Your task to perform on an android device: Empty the shopping cart on target.com. Search for "logitech g pro" on target.com, select the first entry, add it to the cart, then select checkout. Image 0: 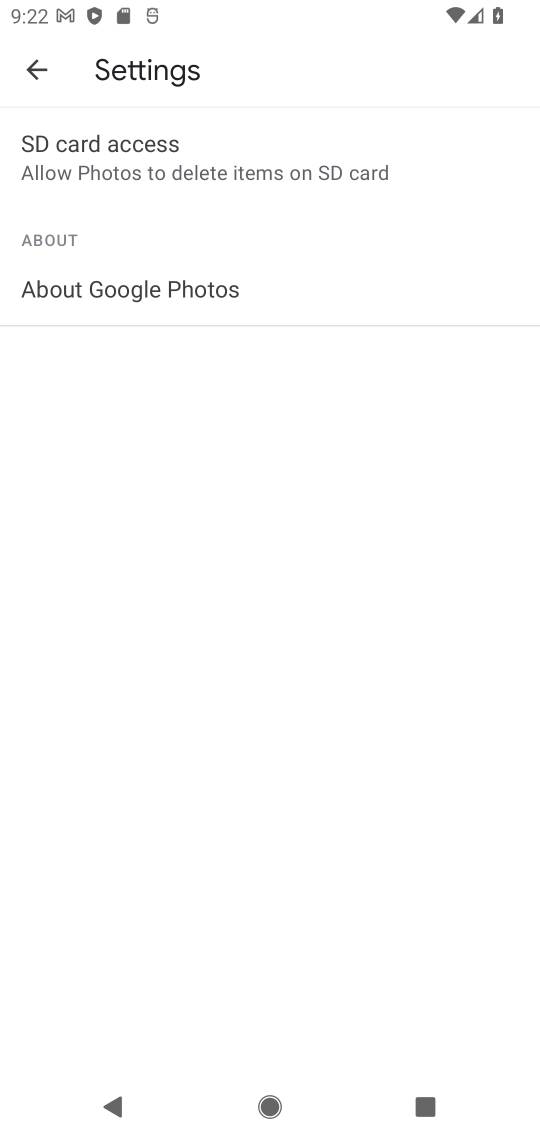
Step 0: press home button
Your task to perform on an android device: Empty the shopping cart on target.com. Search for "logitech g pro" on target.com, select the first entry, add it to the cart, then select checkout. Image 1: 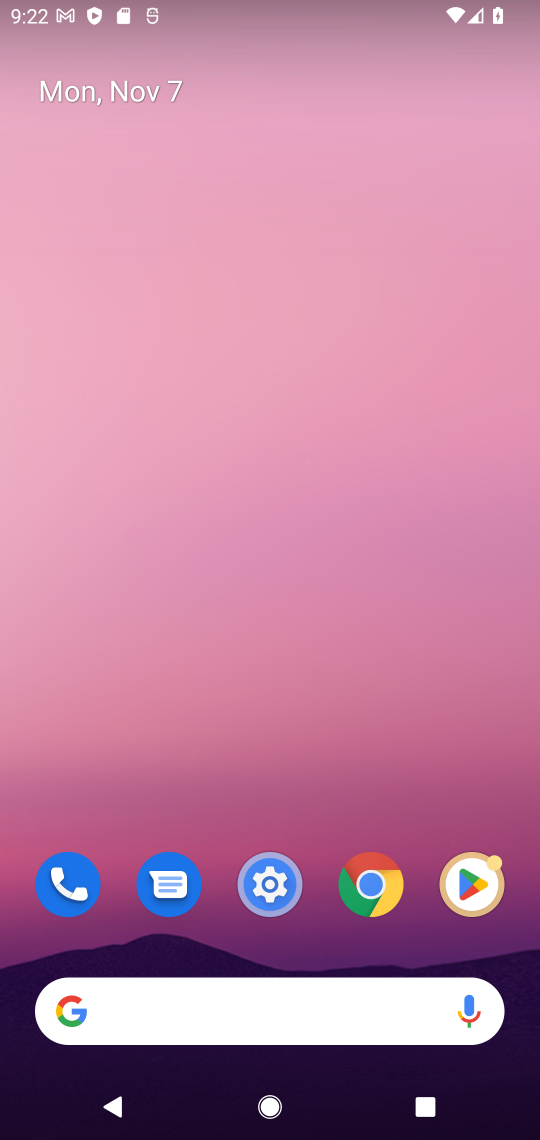
Step 1: click (378, 901)
Your task to perform on an android device: Empty the shopping cart on target.com. Search for "logitech g pro" on target.com, select the first entry, add it to the cart, then select checkout. Image 2: 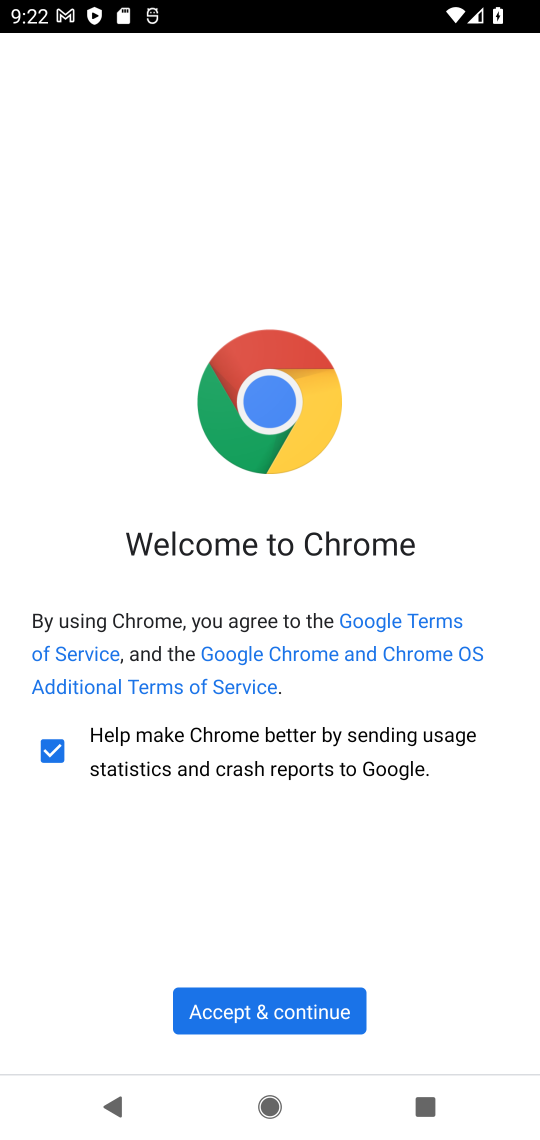
Step 2: click (287, 1012)
Your task to perform on an android device: Empty the shopping cart on target.com. Search for "logitech g pro" on target.com, select the first entry, add it to the cart, then select checkout. Image 3: 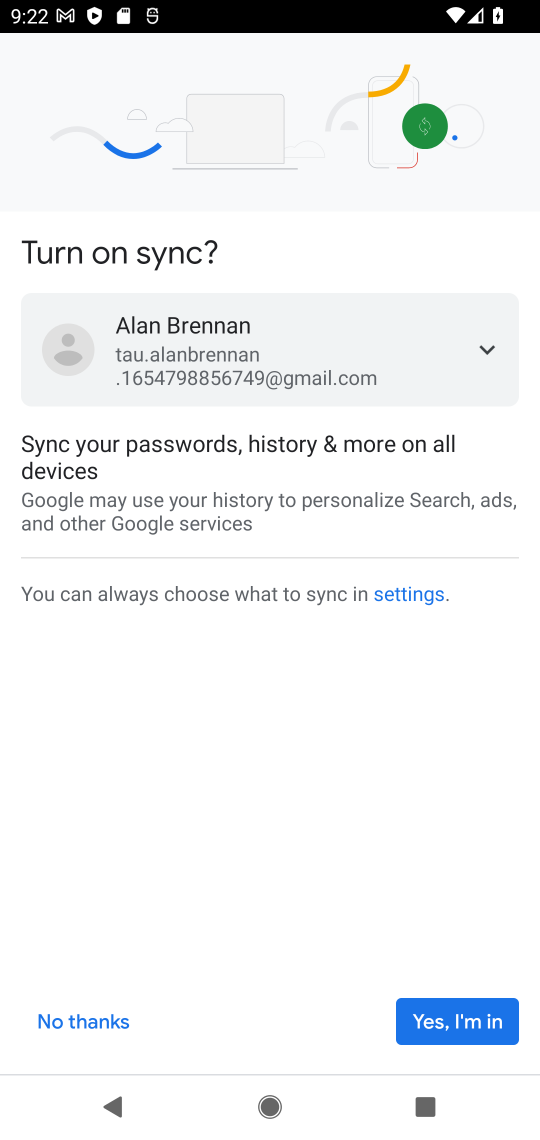
Step 3: click (459, 1012)
Your task to perform on an android device: Empty the shopping cart on target.com. Search for "logitech g pro" on target.com, select the first entry, add it to the cart, then select checkout. Image 4: 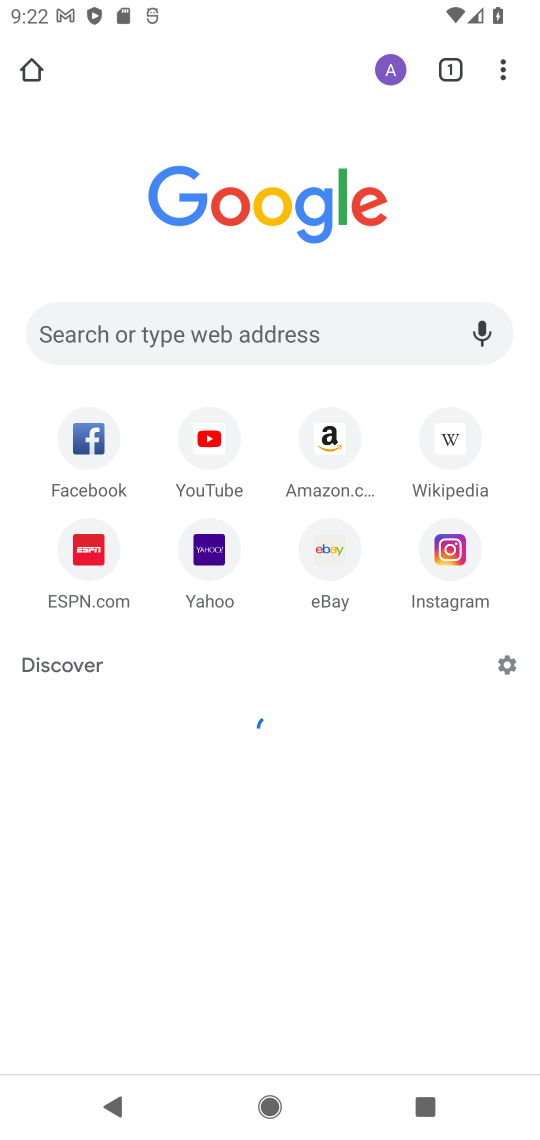
Step 4: click (309, 325)
Your task to perform on an android device: Empty the shopping cart on target.com. Search for "logitech g pro" on target.com, select the first entry, add it to the cart, then select checkout. Image 5: 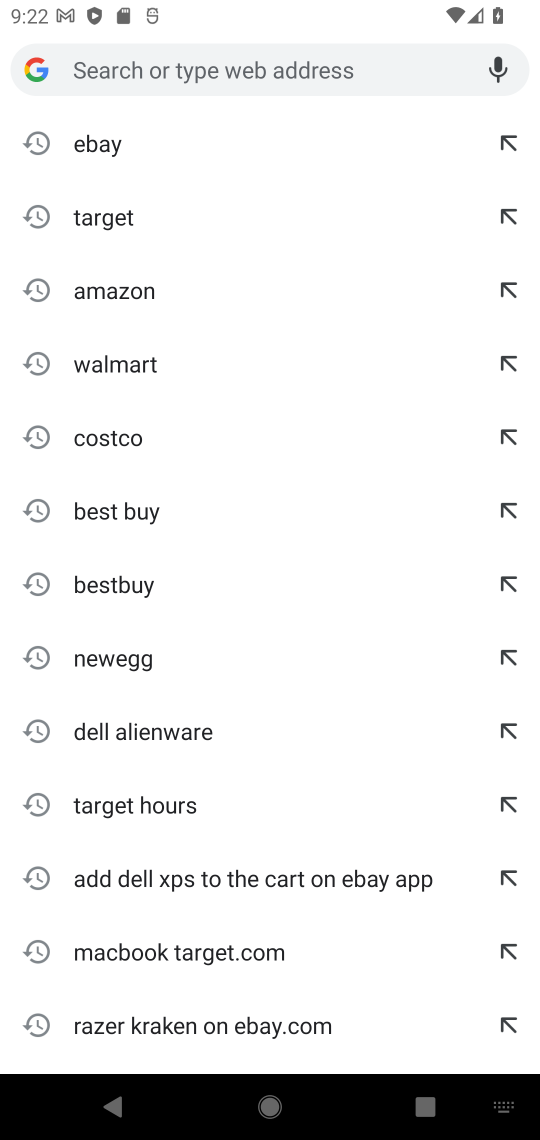
Step 5: click (119, 213)
Your task to perform on an android device: Empty the shopping cart on target.com. Search for "logitech g pro" on target.com, select the first entry, add it to the cart, then select checkout. Image 6: 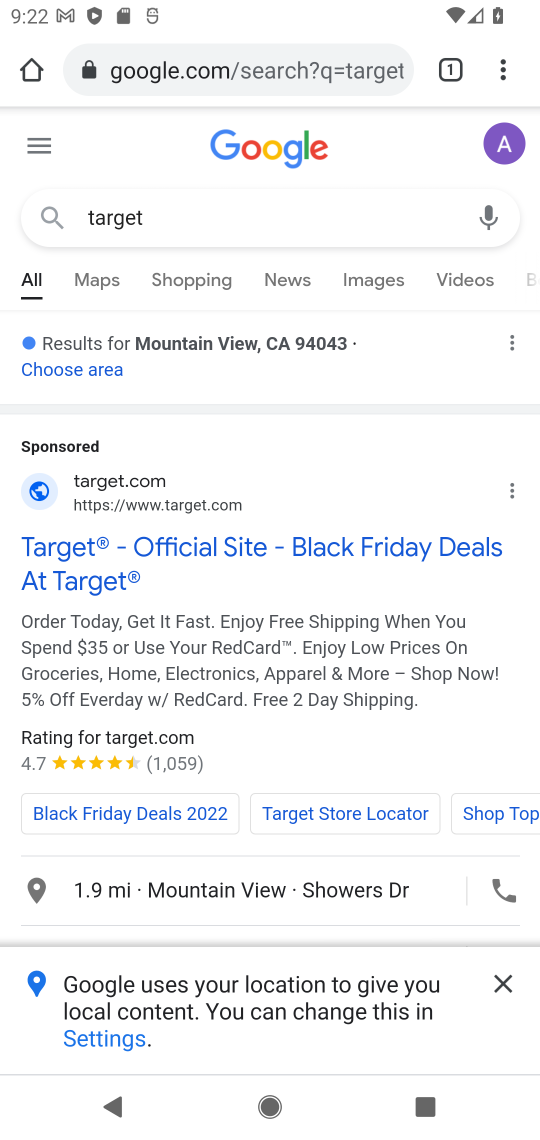
Step 6: click (176, 508)
Your task to perform on an android device: Empty the shopping cart on target.com. Search for "logitech g pro" on target.com, select the first entry, add it to the cart, then select checkout. Image 7: 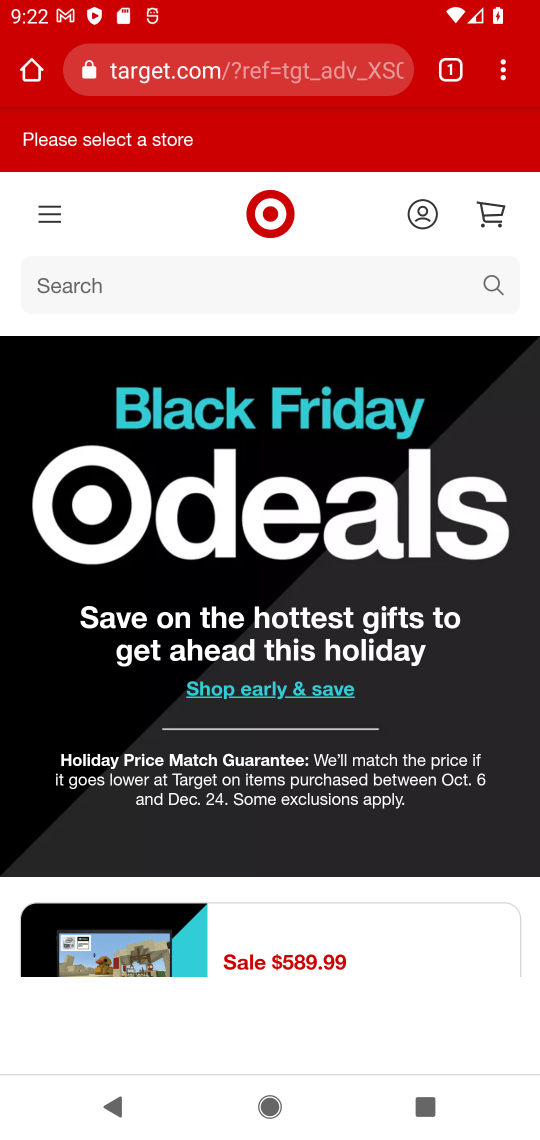
Step 7: click (490, 223)
Your task to perform on an android device: Empty the shopping cart on target.com. Search for "logitech g pro" on target.com, select the first entry, add it to the cart, then select checkout. Image 8: 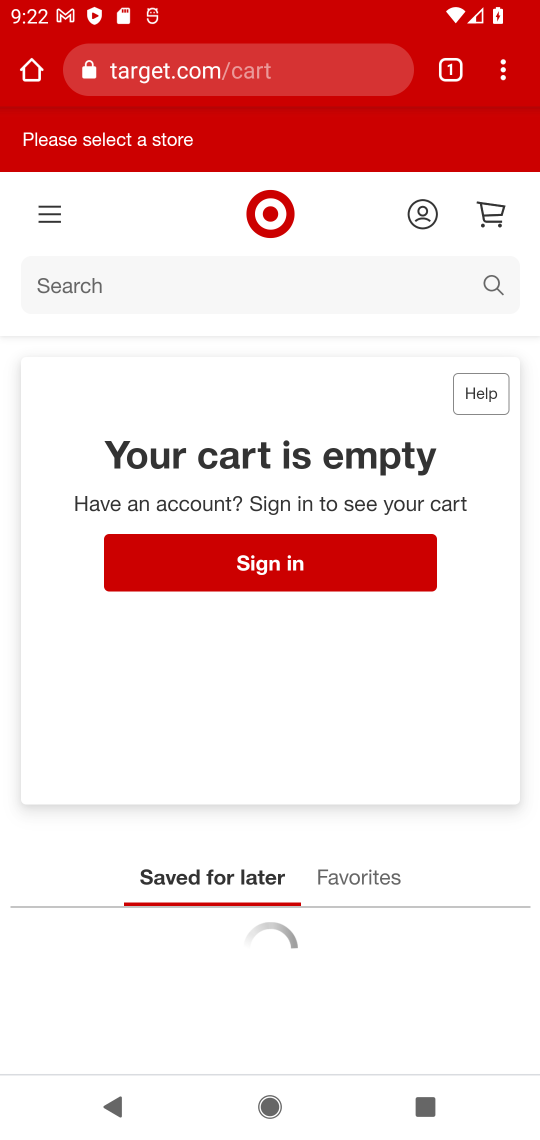
Step 8: click (491, 284)
Your task to perform on an android device: Empty the shopping cart on target.com. Search for "logitech g pro" on target.com, select the first entry, add it to the cart, then select checkout. Image 9: 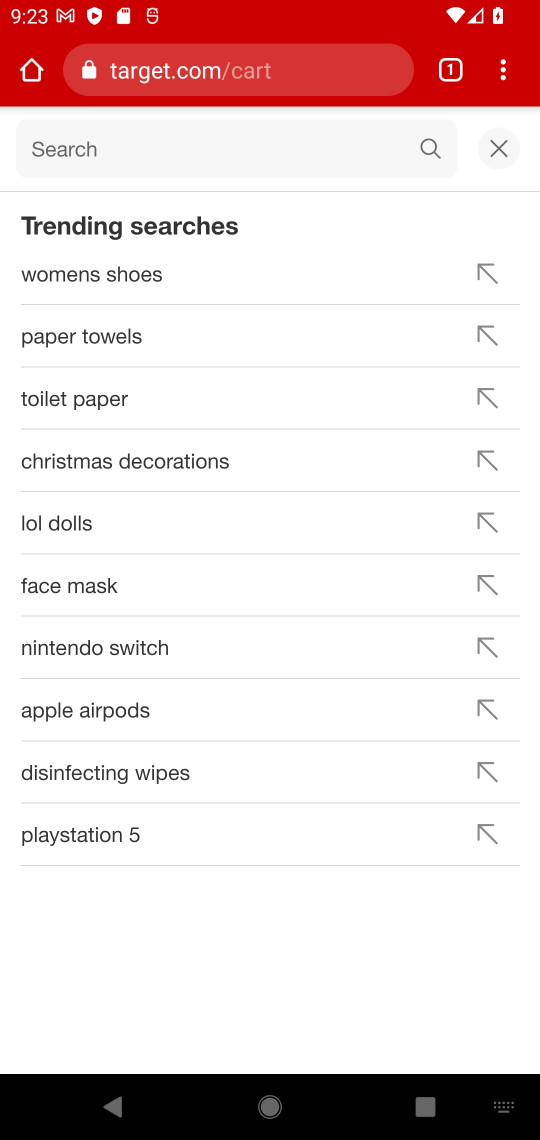
Step 9: type "logitech g pro"
Your task to perform on an android device: Empty the shopping cart on target.com. Search for "logitech g pro" on target.com, select the first entry, add it to the cart, then select checkout. Image 10: 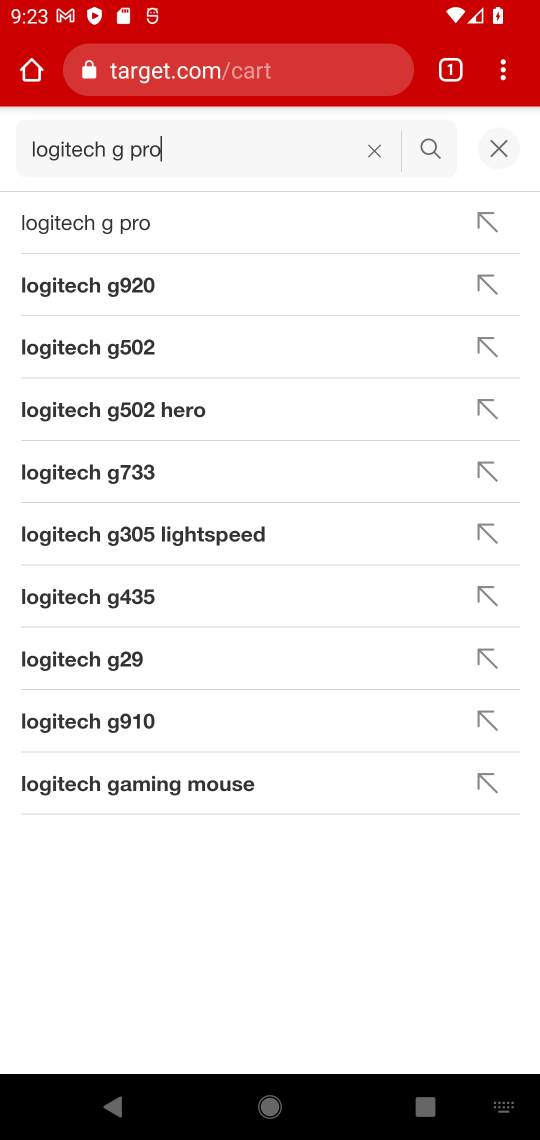
Step 10: click (128, 213)
Your task to perform on an android device: Empty the shopping cart on target.com. Search for "logitech g pro" on target.com, select the first entry, add it to the cart, then select checkout. Image 11: 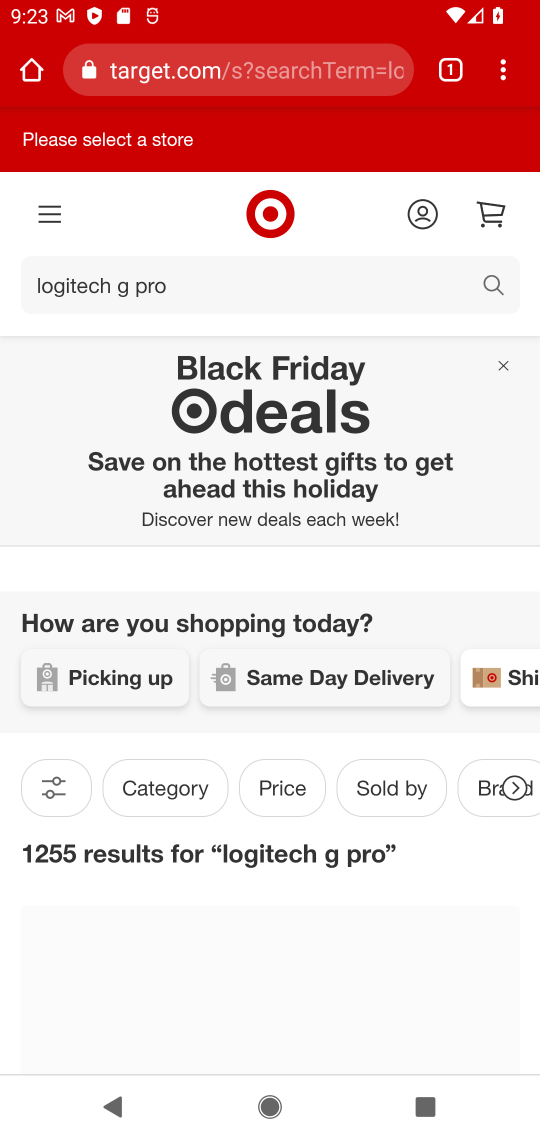
Step 11: drag from (418, 953) to (441, 282)
Your task to perform on an android device: Empty the shopping cart on target.com. Search for "logitech g pro" on target.com, select the first entry, add it to the cart, then select checkout. Image 12: 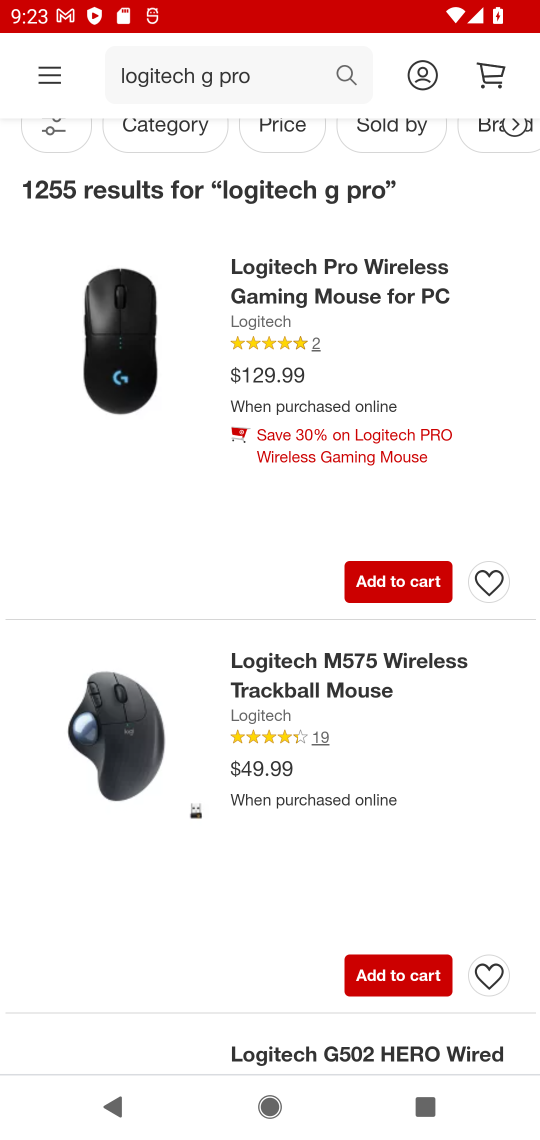
Step 12: drag from (404, 745) to (398, 349)
Your task to perform on an android device: Empty the shopping cart on target.com. Search for "logitech g pro" on target.com, select the first entry, add it to the cart, then select checkout. Image 13: 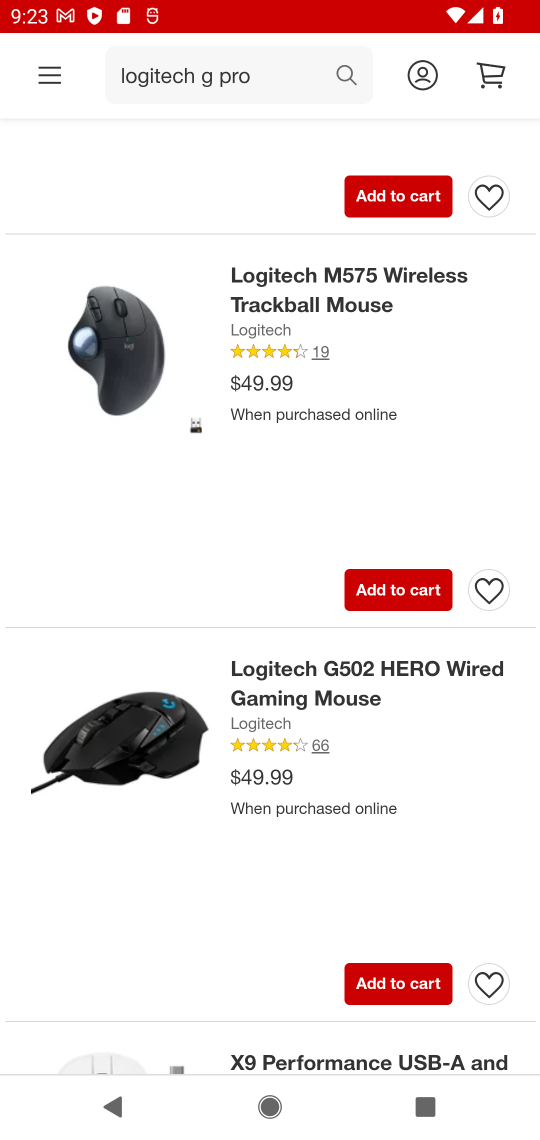
Step 13: drag from (400, 779) to (520, 281)
Your task to perform on an android device: Empty the shopping cart on target.com. Search for "logitech g pro" on target.com, select the first entry, add it to the cart, then select checkout. Image 14: 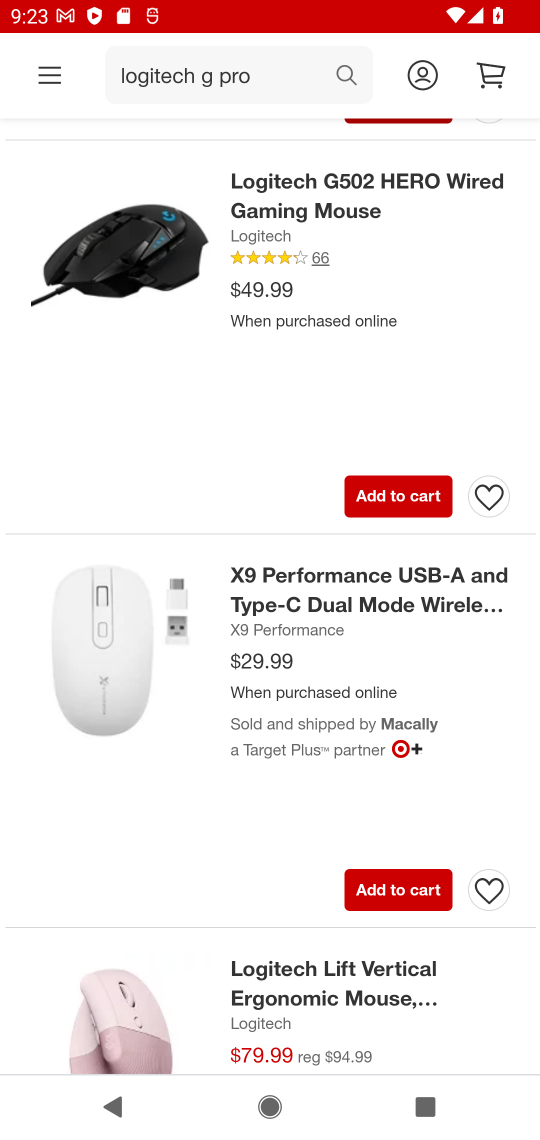
Step 14: drag from (361, 679) to (429, 357)
Your task to perform on an android device: Empty the shopping cart on target.com. Search for "logitech g pro" on target.com, select the first entry, add it to the cart, then select checkout. Image 15: 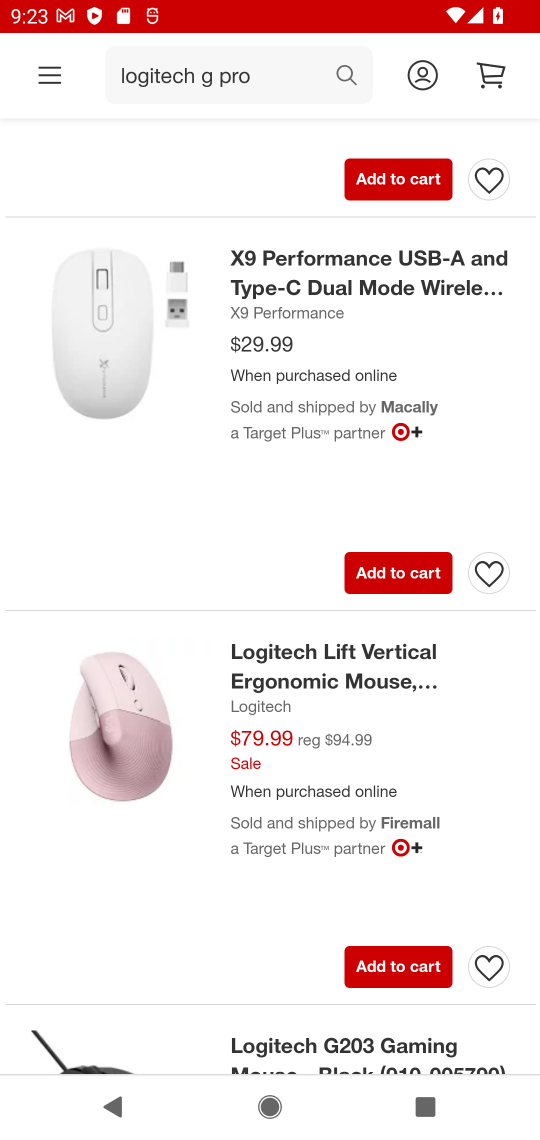
Step 15: drag from (452, 757) to (470, 325)
Your task to perform on an android device: Empty the shopping cart on target.com. Search for "logitech g pro" on target.com, select the first entry, add it to the cart, then select checkout. Image 16: 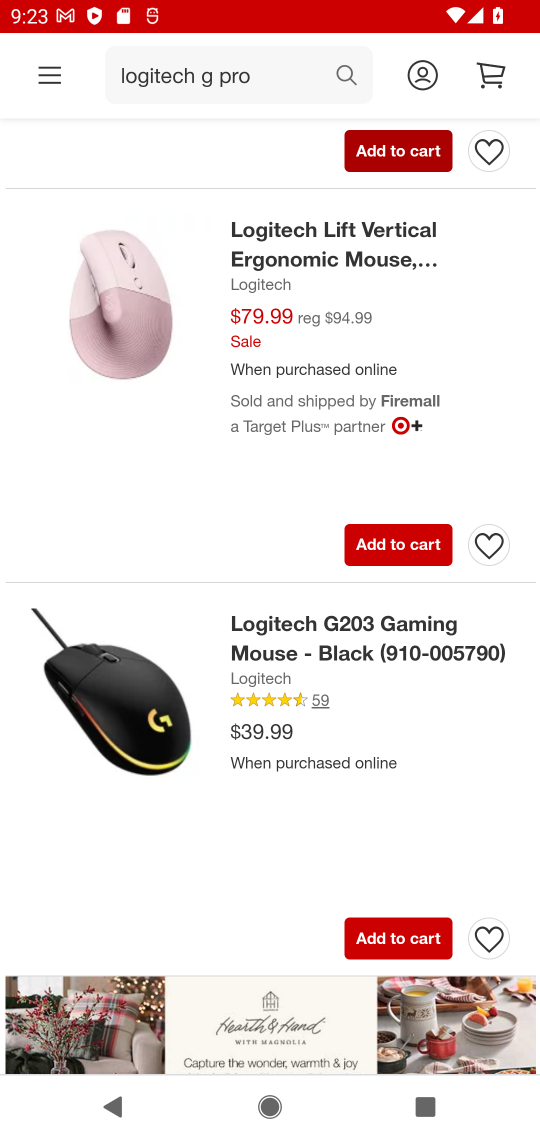
Step 16: drag from (390, 757) to (447, 324)
Your task to perform on an android device: Empty the shopping cart on target.com. Search for "logitech g pro" on target.com, select the first entry, add it to the cart, then select checkout. Image 17: 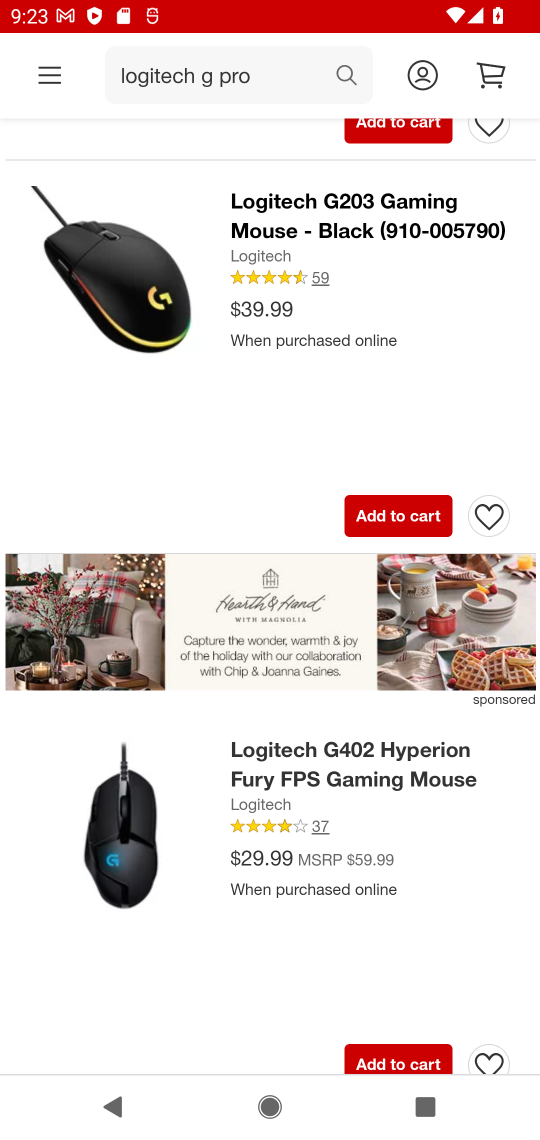
Step 17: drag from (383, 816) to (438, 526)
Your task to perform on an android device: Empty the shopping cart on target.com. Search for "logitech g pro" on target.com, select the first entry, add it to the cart, then select checkout. Image 18: 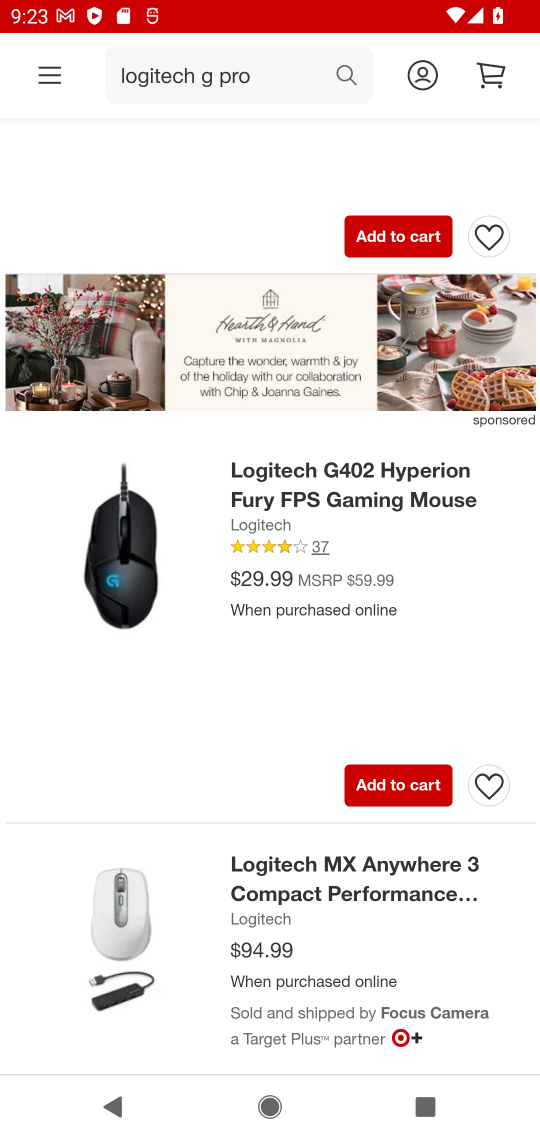
Step 18: drag from (417, 649) to (420, 390)
Your task to perform on an android device: Empty the shopping cart on target.com. Search for "logitech g pro" on target.com, select the first entry, add it to the cart, then select checkout. Image 19: 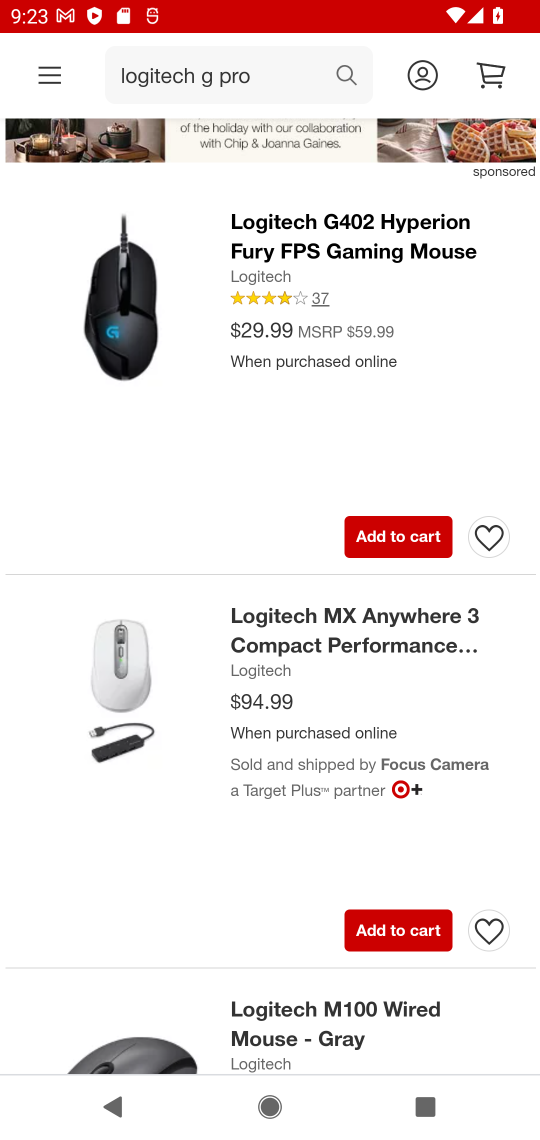
Step 19: drag from (454, 709) to (480, 284)
Your task to perform on an android device: Empty the shopping cart on target.com. Search for "logitech g pro" on target.com, select the first entry, add it to the cart, then select checkout. Image 20: 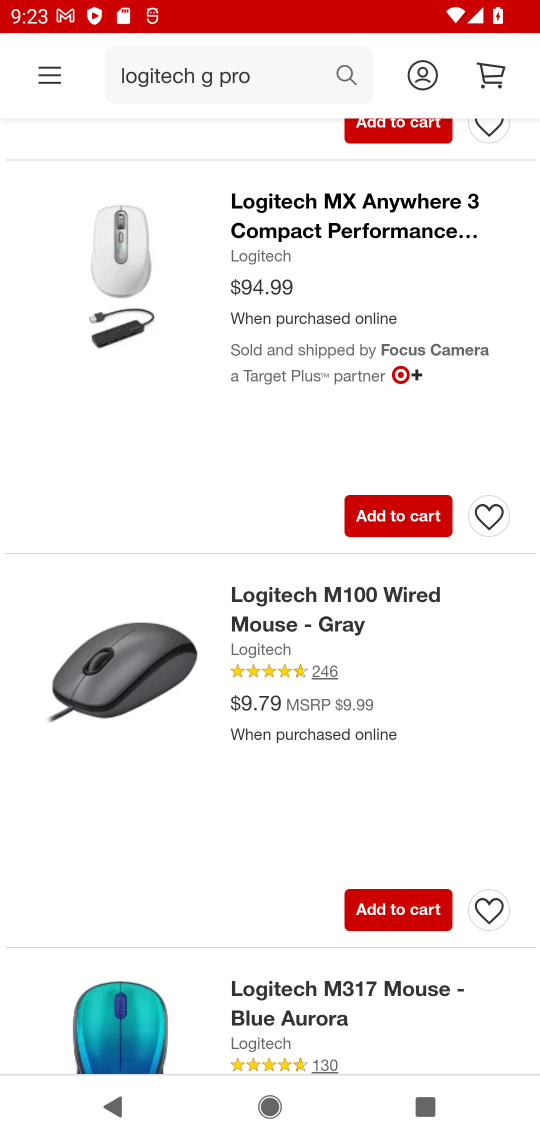
Step 20: drag from (419, 666) to (421, 490)
Your task to perform on an android device: Empty the shopping cart on target.com. Search for "logitech g pro" on target.com, select the first entry, add it to the cart, then select checkout. Image 21: 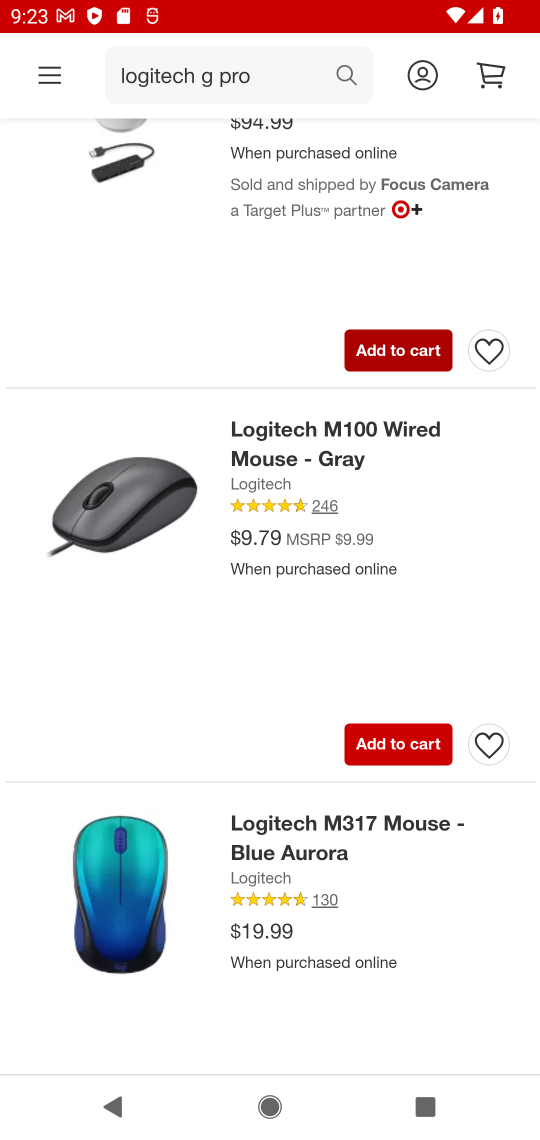
Step 21: drag from (425, 620) to (438, 290)
Your task to perform on an android device: Empty the shopping cart on target.com. Search for "logitech g pro" on target.com, select the first entry, add it to the cart, then select checkout. Image 22: 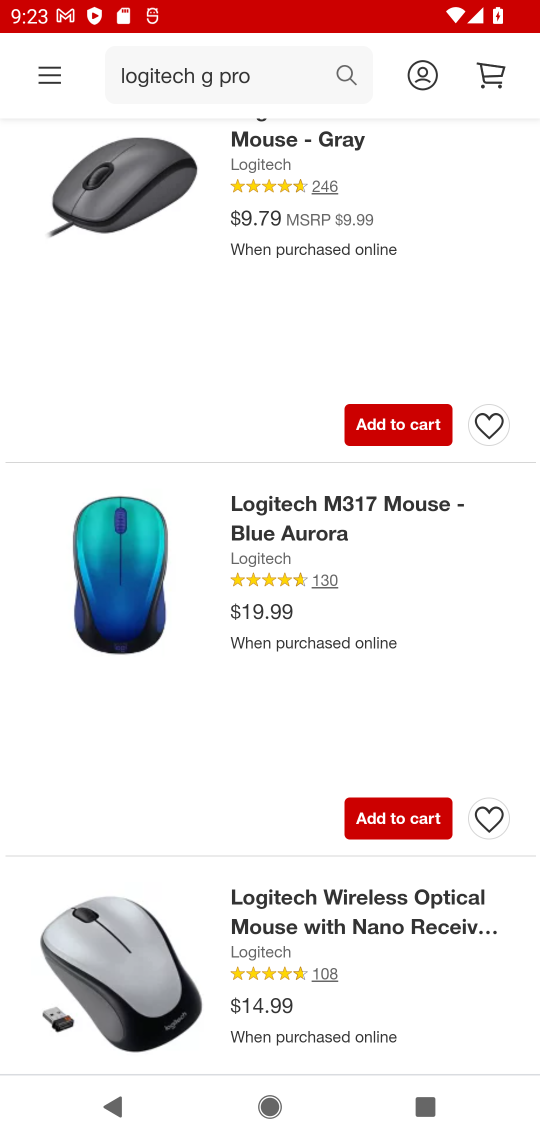
Step 22: drag from (375, 832) to (459, 476)
Your task to perform on an android device: Empty the shopping cart on target.com. Search for "logitech g pro" on target.com, select the first entry, add it to the cart, then select checkout. Image 23: 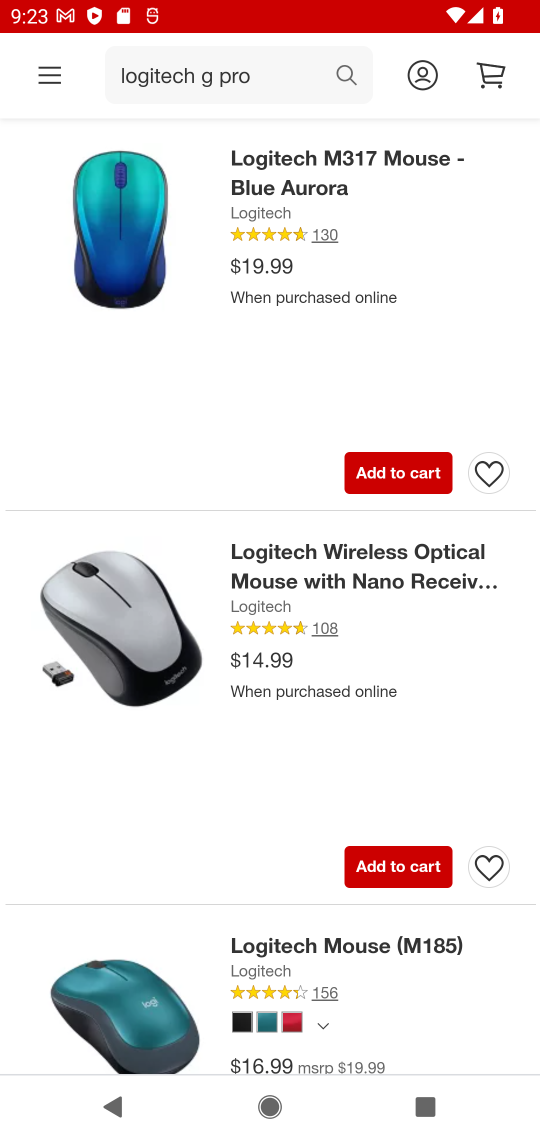
Step 23: drag from (422, 737) to (464, 304)
Your task to perform on an android device: Empty the shopping cart on target.com. Search for "logitech g pro" on target.com, select the first entry, add it to the cart, then select checkout. Image 24: 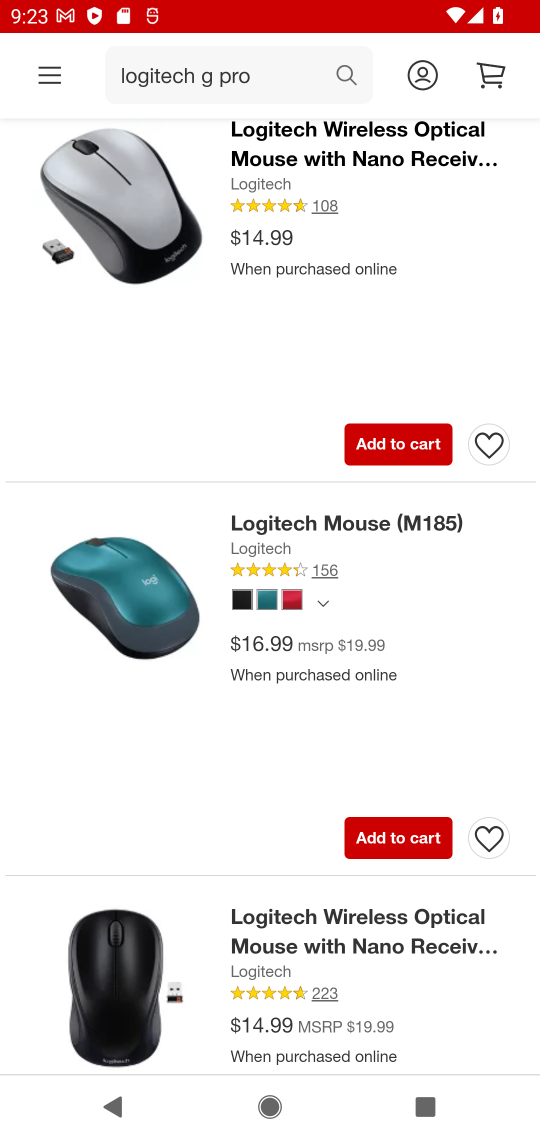
Step 24: drag from (401, 1005) to (377, 462)
Your task to perform on an android device: Empty the shopping cart on target.com. Search for "logitech g pro" on target.com, select the first entry, add it to the cart, then select checkout. Image 25: 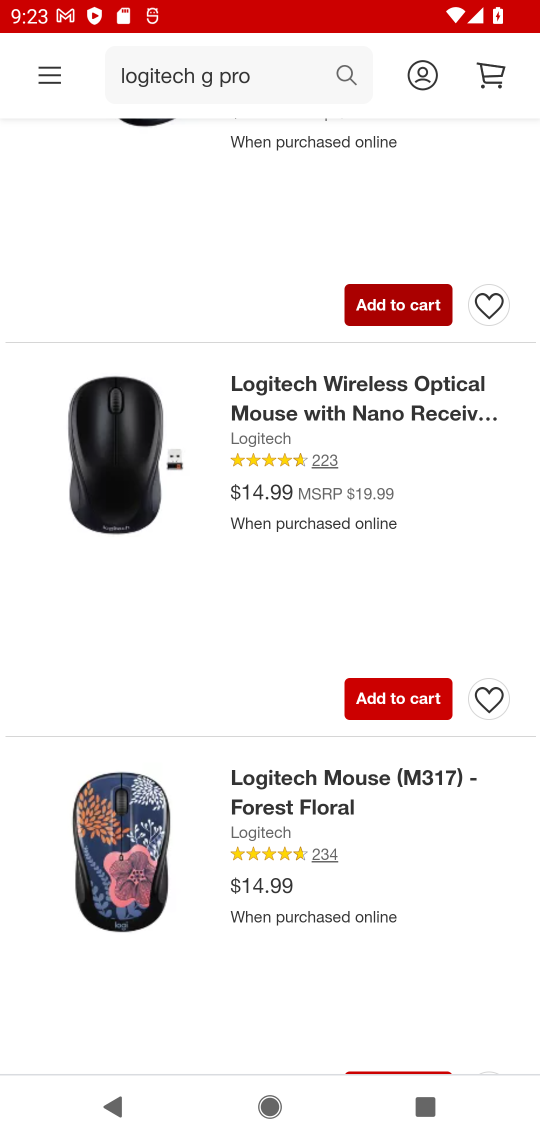
Step 25: drag from (381, 881) to (422, 463)
Your task to perform on an android device: Empty the shopping cart on target.com. Search for "logitech g pro" on target.com, select the first entry, add it to the cart, then select checkout. Image 26: 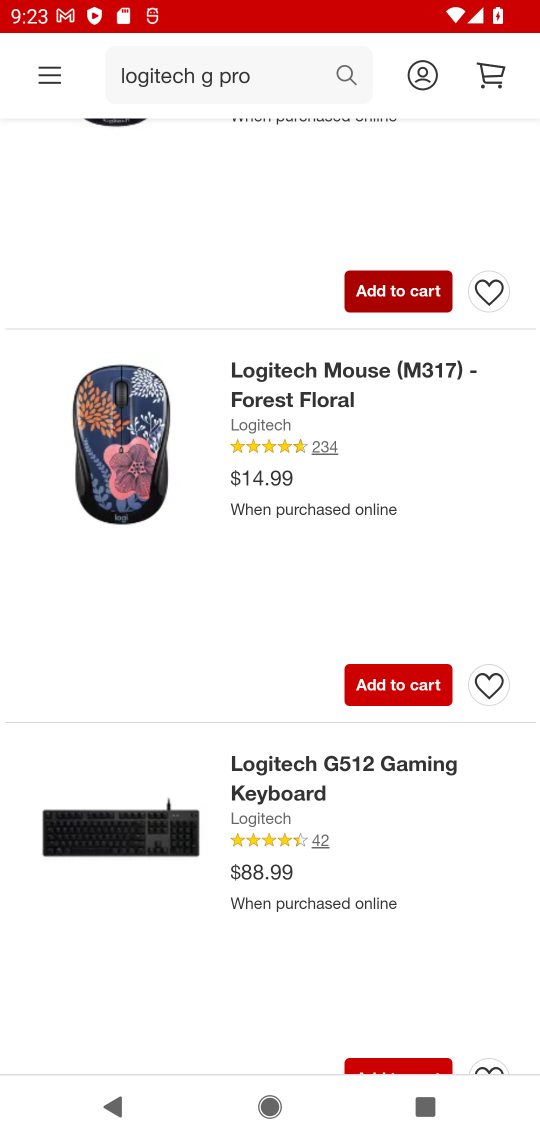
Step 26: drag from (404, 888) to (402, 386)
Your task to perform on an android device: Empty the shopping cart on target.com. Search for "logitech g pro" on target.com, select the first entry, add it to the cart, then select checkout. Image 27: 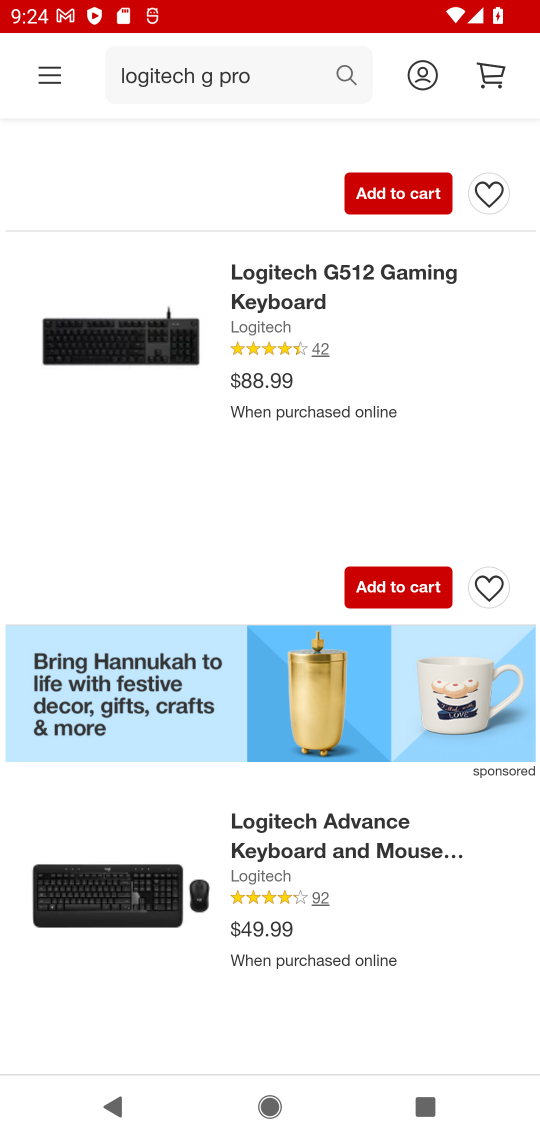
Step 27: drag from (299, 928) to (299, 617)
Your task to perform on an android device: Empty the shopping cart on target.com. Search for "logitech g pro" on target.com, select the first entry, add it to the cart, then select checkout. Image 28: 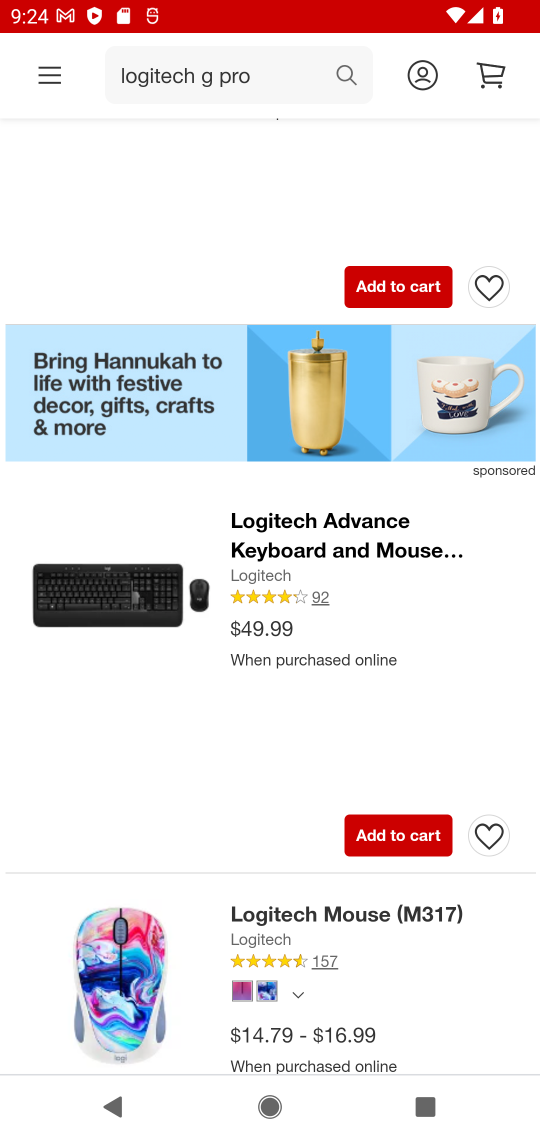
Step 28: drag from (421, 623) to (475, 361)
Your task to perform on an android device: Empty the shopping cart on target.com. Search for "logitech g pro" on target.com, select the first entry, add it to the cart, then select checkout. Image 29: 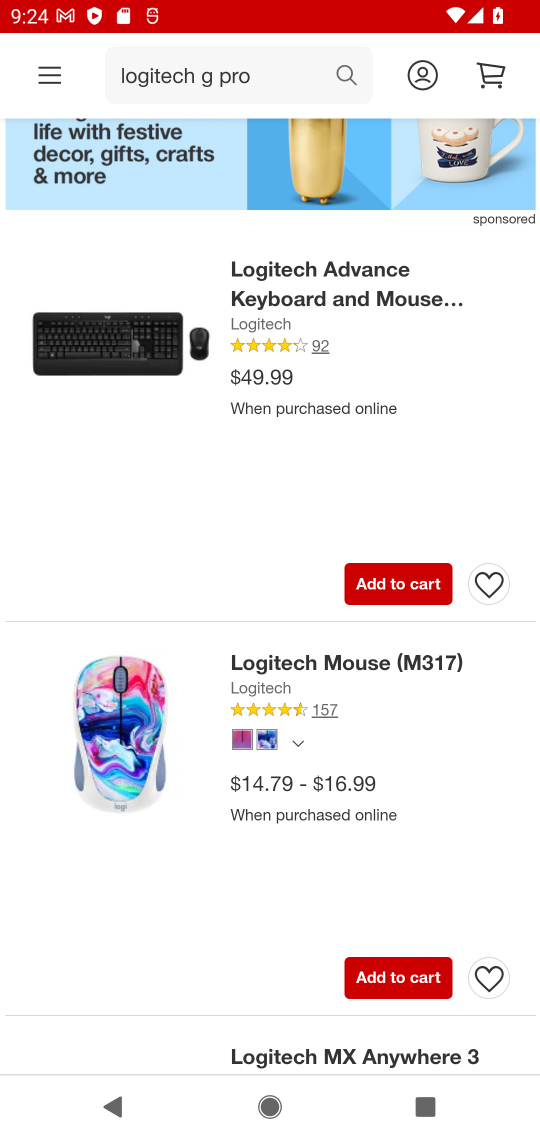
Step 29: drag from (437, 653) to (447, 426)
Your task to perform on an android device: Empty the shopping cart on target.com. Search for "logitech g pro" on target.com, select the first entry, add it to the cart, then select checkout. Image 30: 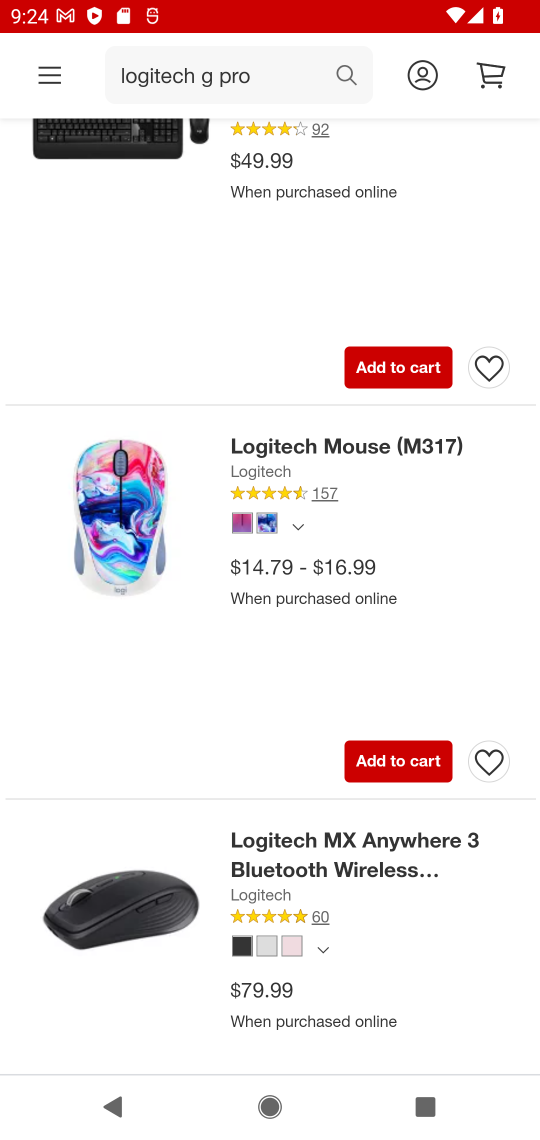
Step 30: drag from (394, 649) to (398, 203)
Your task to perform on an android device: Empty the shopping cart on target.com. Search for "logitech g pro" on target.com, select the first entry, add it to the cart, then select checkout. Image 31: 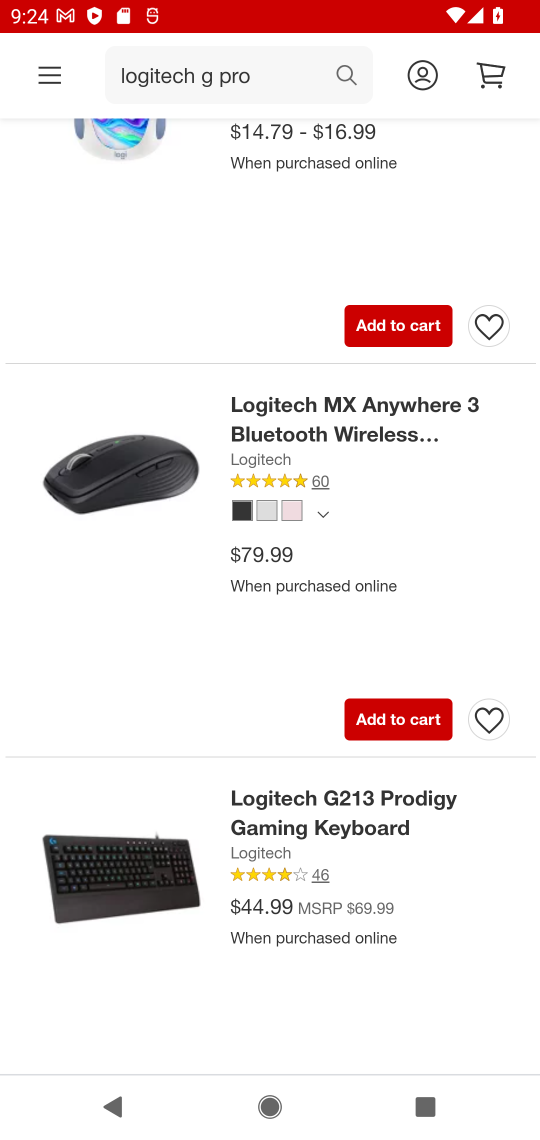
Step 31: drag from (422, 483) to (351, 1109)
Your task to perform on an android device: Empty the shopping cart on target.com. Search for "logitech g pro" on target.com, select the first entry, add it to the cart, then select checkout. Image 32: 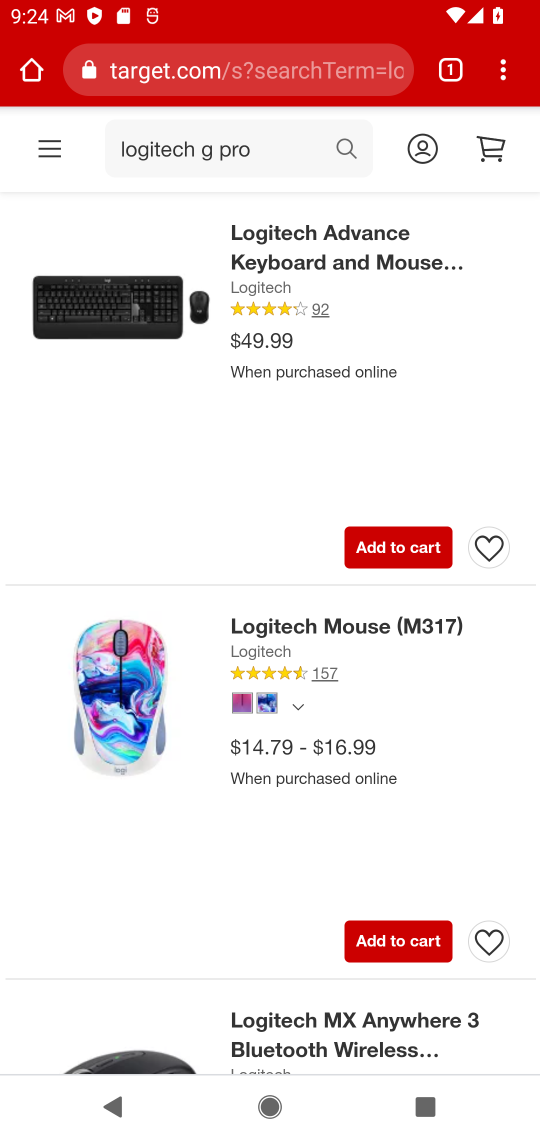
Step 32: drag from (423, 231) to (381, 760)
Your task to perform on an android device: Empty the shopping cart on target.com. Search for "logitech g pro" on target.com, select the first entry, add it to the cart, then select checkout. Image 33: 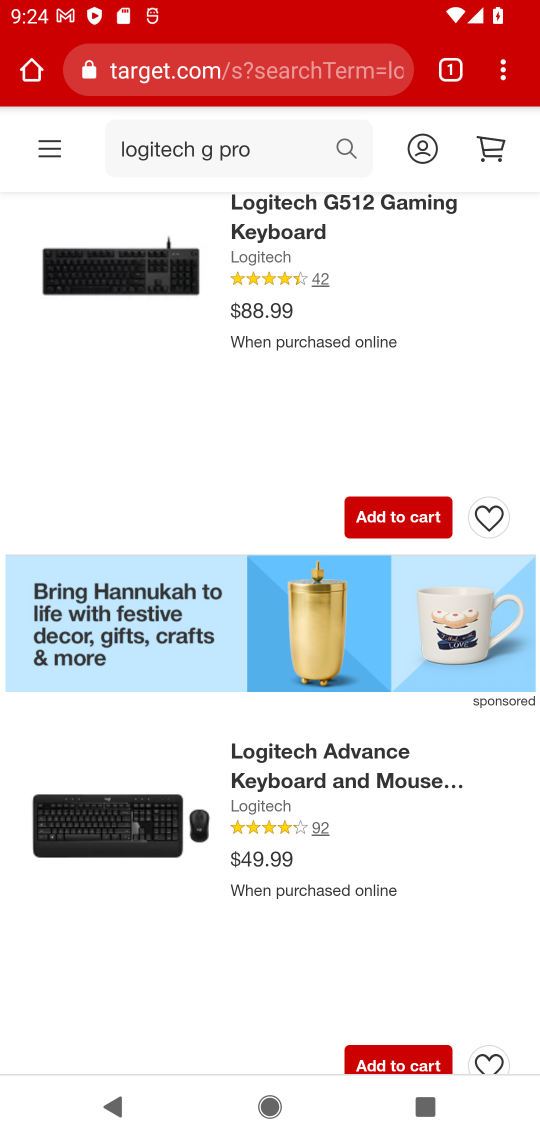
Step 33: drag from (393, 544) to (339, 891)
Your task to perform on an android device: Empty the shopping cart on target.com. Search for "logitech g pro" on target.com, select the first entry, add it to the cart, then select checkout. Image 34: 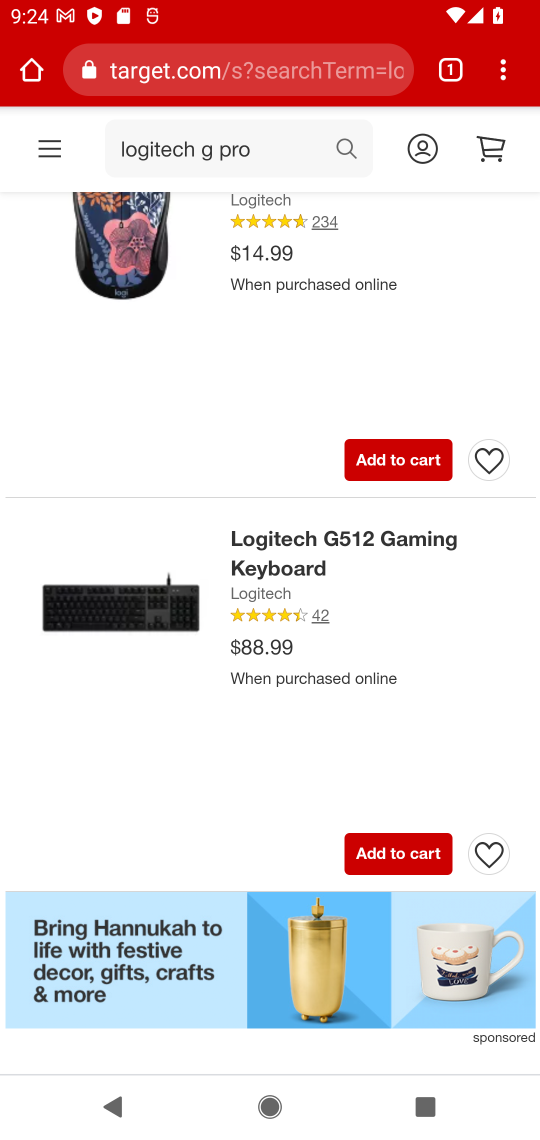
Step 34: drag from (438, 328) to (330, 904)
Your task to perform on an android device: Empty the shopping cart on target.com. Search for "logitech g pro" on target.com, select the first entry, add it to the cart, then select checkout. Image 35: 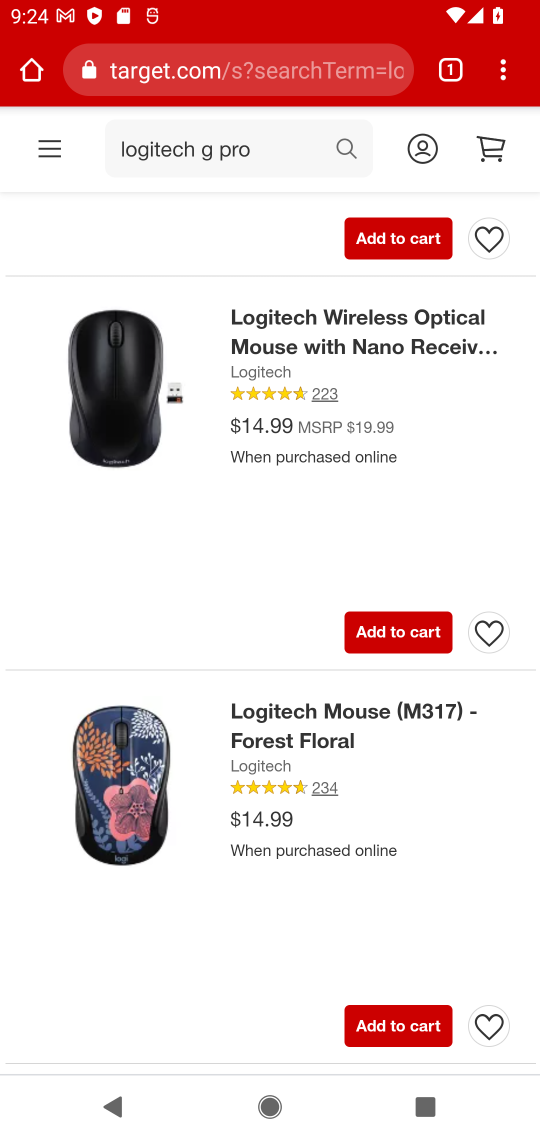
Step 35: drag from (444, 379) to (449, 777)
Your task to perform on an android device: Empty the shopping cart on target.com. Search for "logitech g pro" on target.com, select the first entry, add it to the cart, then select checkout. Image 36: 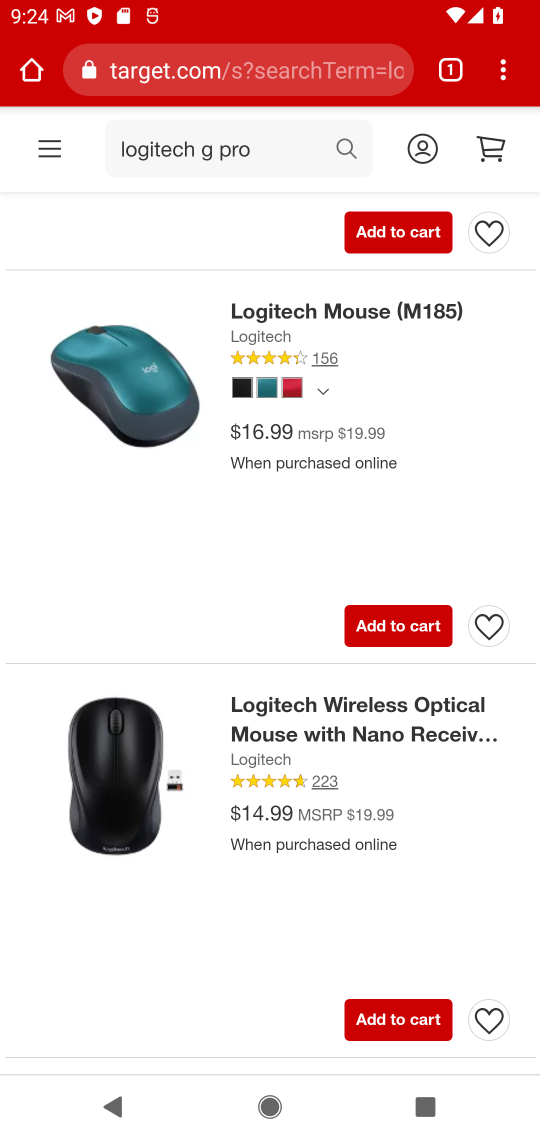
Step 36: drag from (388, 340) to (345, 778)
Your task to perform on an android device: Empty the shopping cart on target.com. Search for "logitech g pro" on target.com, select the first entry, add it to the cart, then select checkout. Image 37: 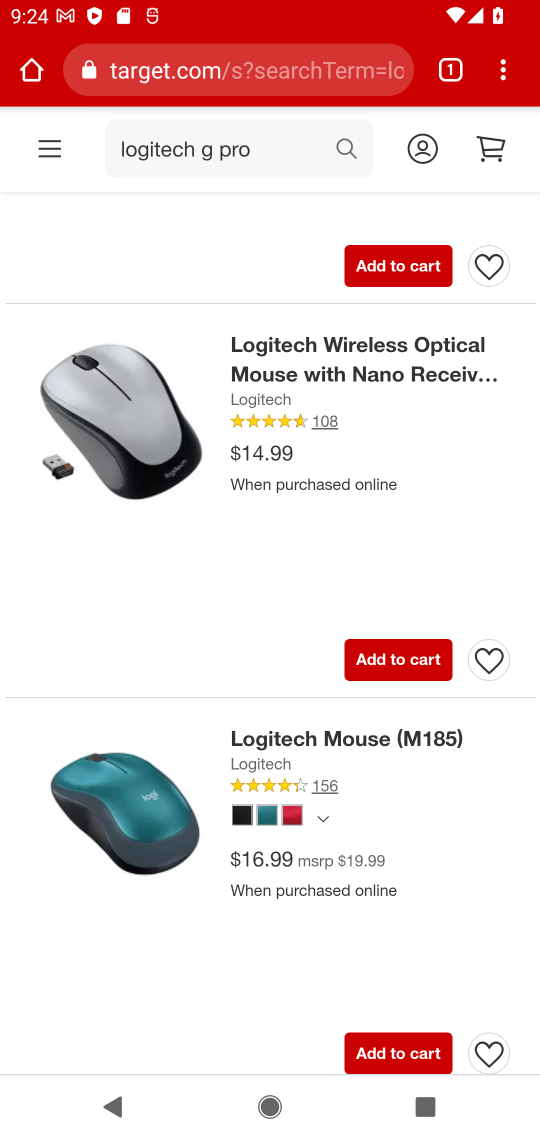
Step 37: drag from (419, 467) to (422, 966)
Your task to perform on an android device: Empty the shopping cart on target.com. Search for "logitech g pro" on target.com, select the first entry, add it to the cart, then select checkout. Image 38: 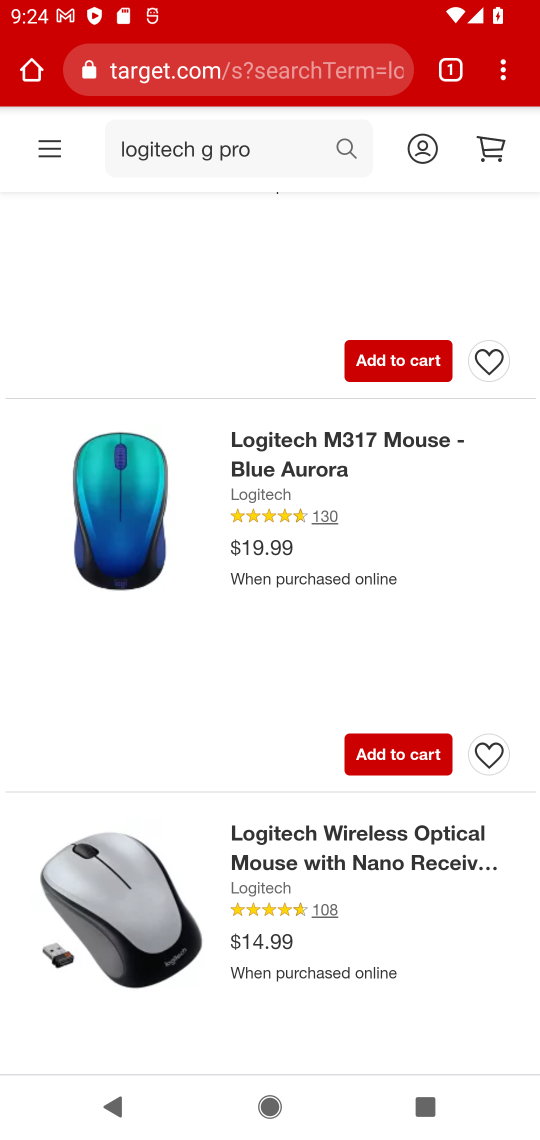
Step 38: drag from (405, 519) to (348, 1004)
Your task to perform on an android device: Empty the shopping cart on target.com. Search for "logitech g pro" on target.com, select the first entry, add it to the cart, then select checkout. Image 39: 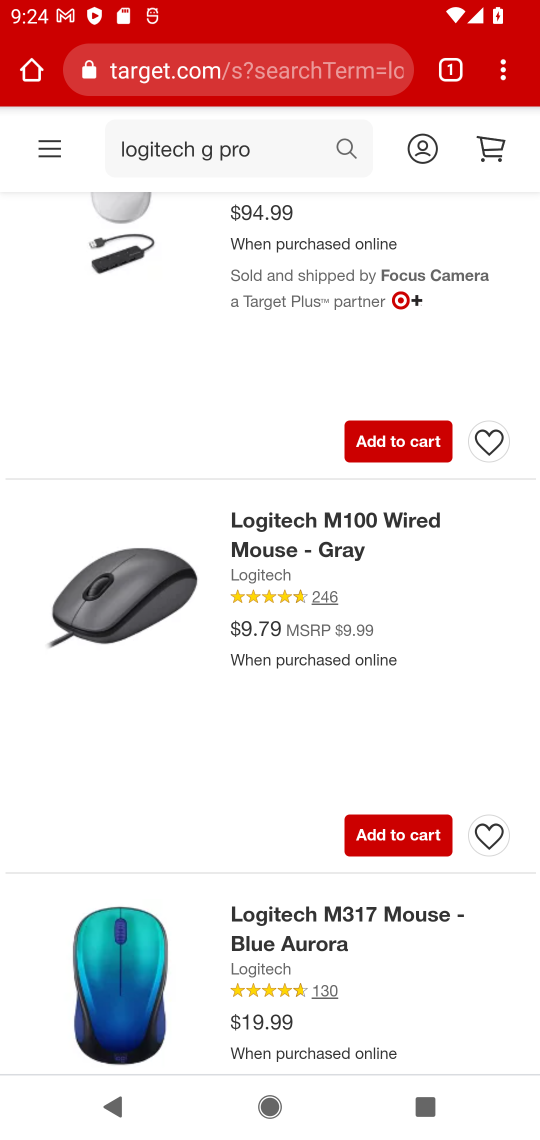
Step 39: drag from (374, 312) to (337, 840)
Your task to perform on an android device: Empty the shopping cart on target.com. Search for "logitech g pro" on target.com, select the first entry, add it to the cart, then select checkout. Image 40: 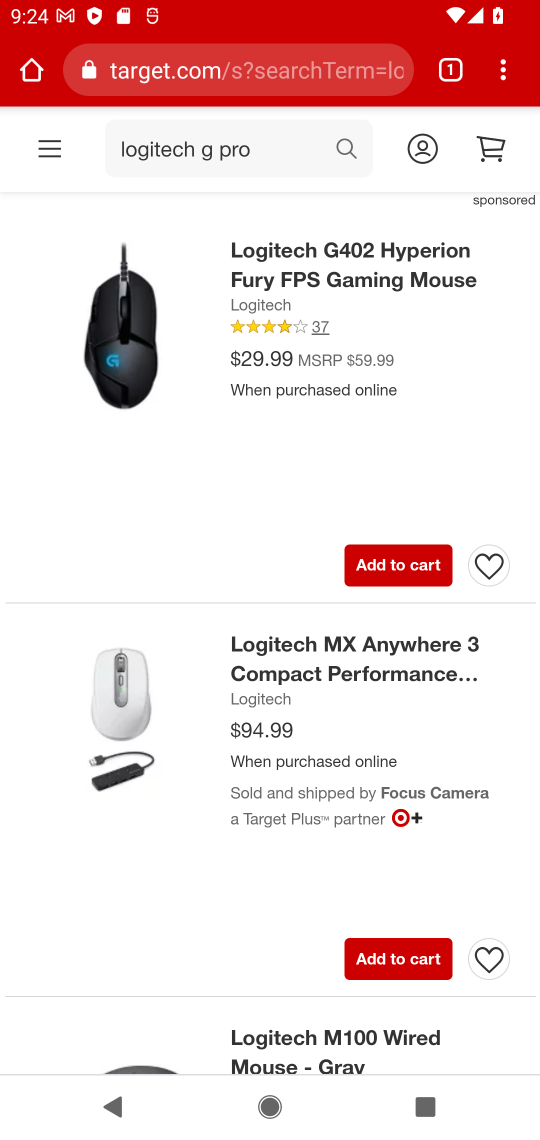
Step 40: drag from (325, 392) to (345, 749)
Your task to perform on an android device: Empty the shopping cart on target.com. Search for "logitech g pro" on target.com, select the first entry, add it to the cart, then select checkout. Image 41: 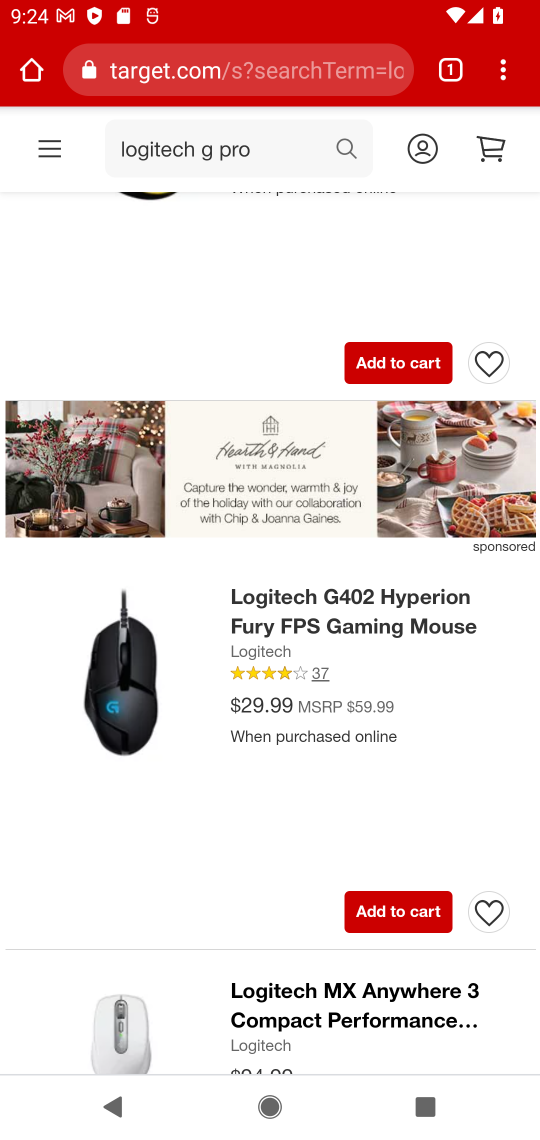
Step 41: drag from (374, 636) to (393, 994)
Your task to perform on an android device: Empty the shopping cart on target.com. Search for "logitech g pro" on target.com, select the first entry, add it to the cart, then select checkout. Image 42: 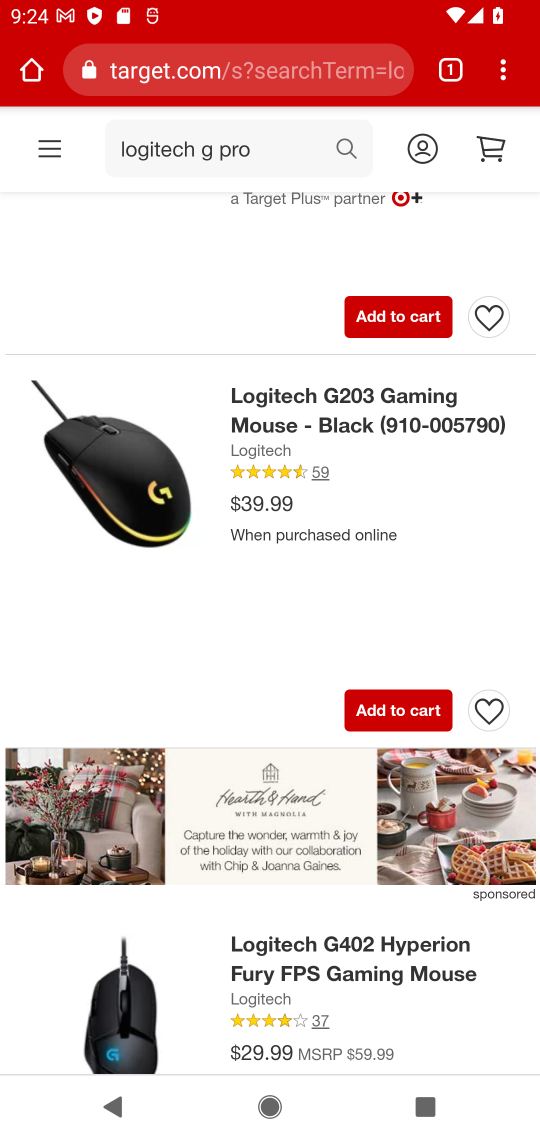
Step 42: drag from (416, 365) to (366, 945)
Your task to perform on an android device: Empty the shopping cart on target.com. Search for "logitech g pro" on target.com, select the first entry, add it to the cart, then select checkout. Image 43: 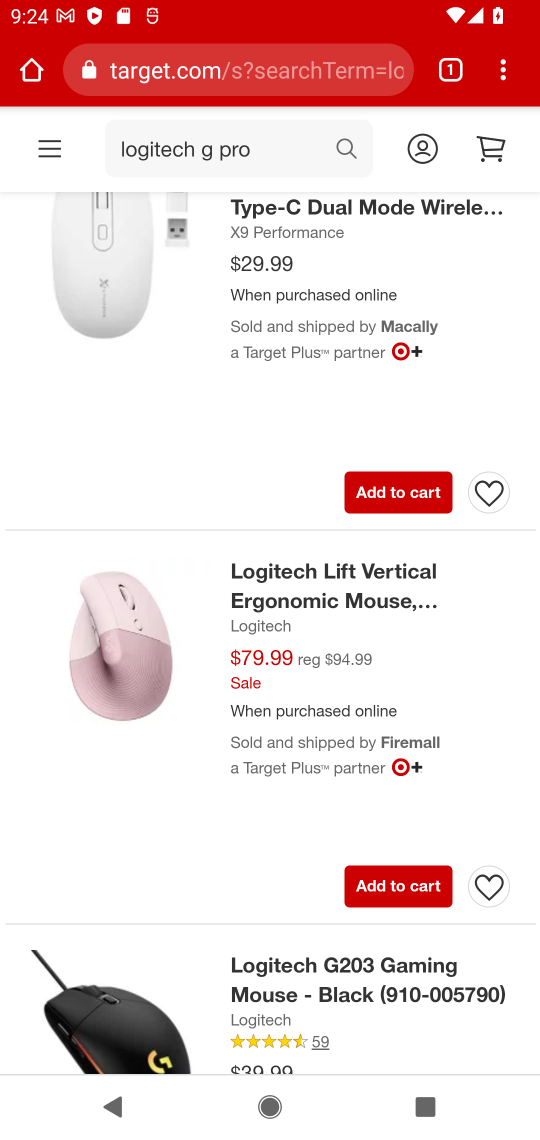
Step 43: drag from (381, 312) to (390, 674)
Your task to perform on an android device: Empty the shopping cart on target.com. Search for "logitech g pro" on target.com, select the first entry, add it to the cart, then select checkout. Image 44: 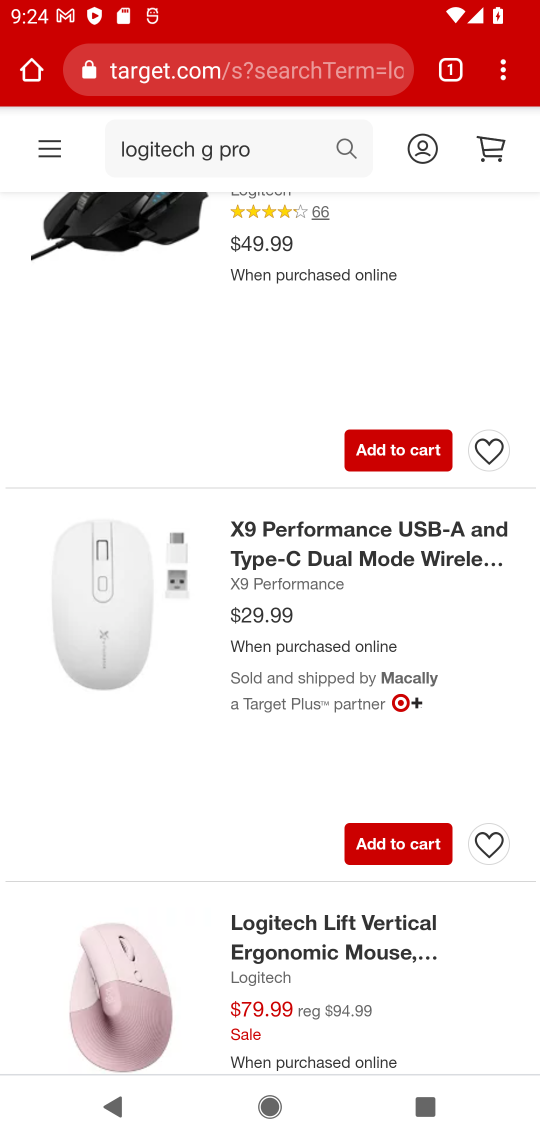
Step 44: drag from (426, 334) to (425, 850)
Your task to perform on an android device: Empty the shopping cart on target.com. Search for "logitech g pro" on target.com, select the first entry, add it to the cart, then select checkout. Image 45: 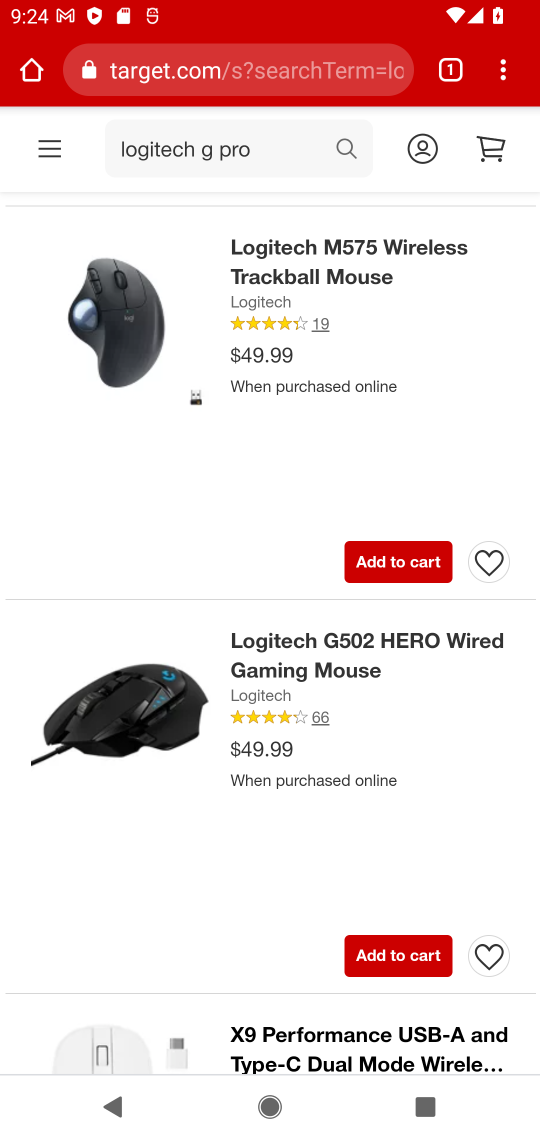
Step 45: drag from (415, 364) to (338, 783)
Your task to perform on an android device: Empty the shopping cart on target.com. Search for "logitech g pro" on target.com, select the first entry, add it to the cart, then select checkout. Image 46: 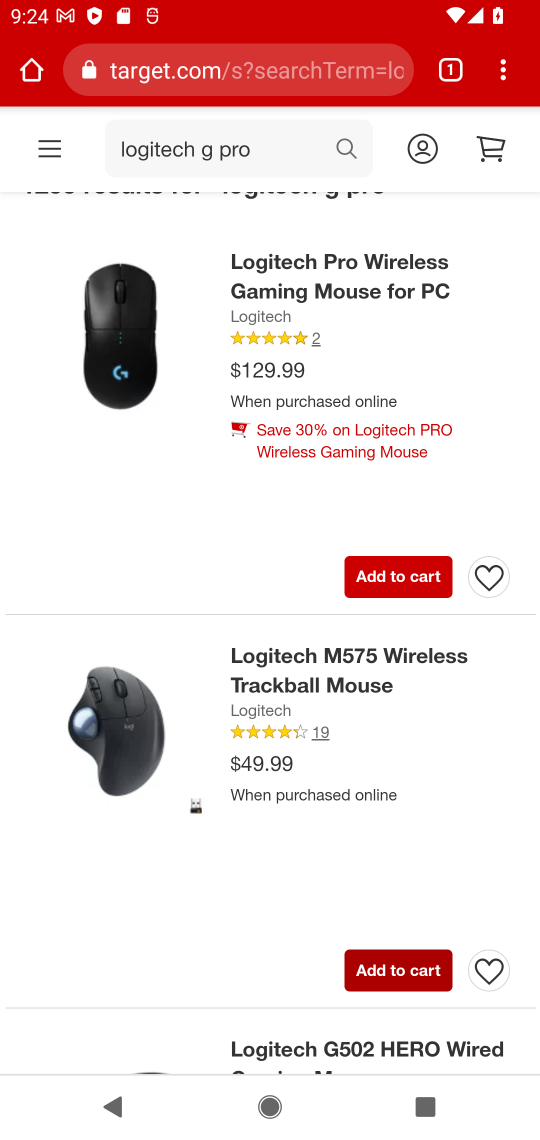
Step 46: drag from (302, 299) to (260, 738)
Your task to perform on an android device: Empty the shopping cart on target.com. Search for "logitech g pro" on target.com, select the first entry, add it to the cart, then select checkout. Image 47: 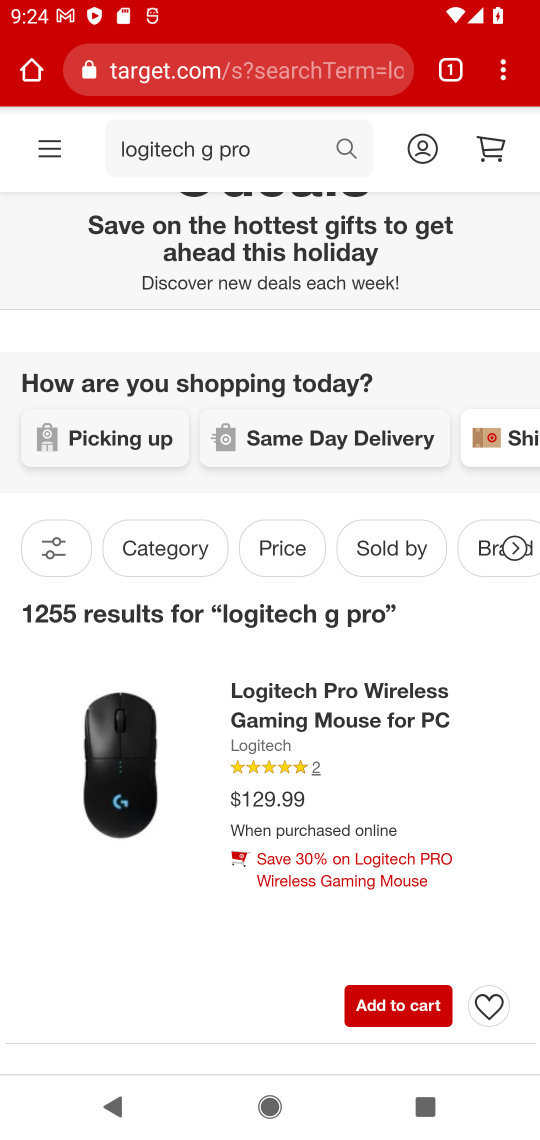
Step 47: click (107, 580)
Your task to perform on an android device: Empty the shopping cart on target.com. Search for "logitech g pro" on target.com, select the first entry, add it to the cart, then select checkout. Image 48: 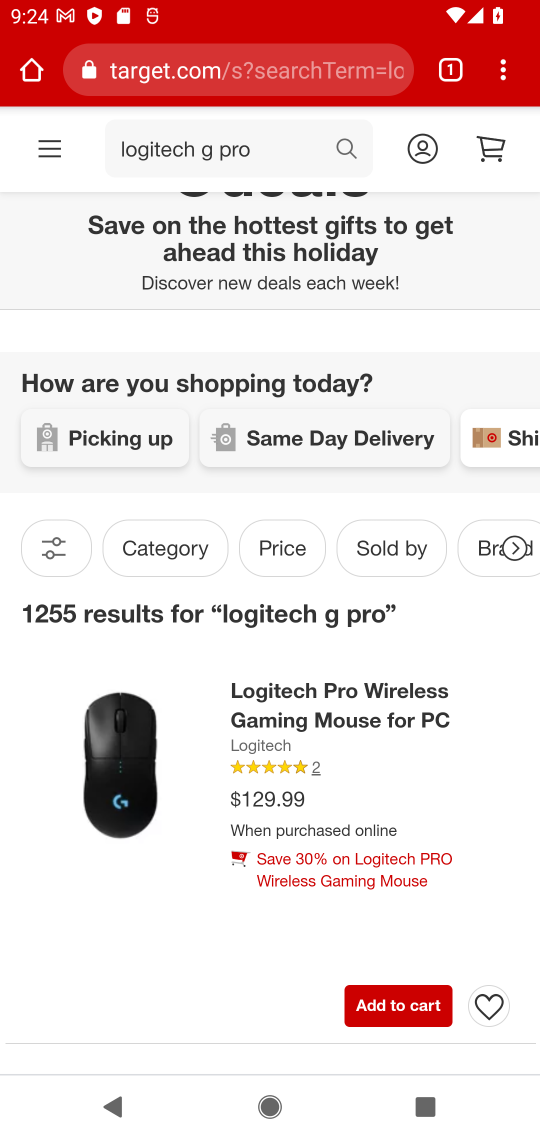
Step 48: click (131, 742)
Your task to perform on an android device: Empty the shopping cart on target.com. Search for "logitech g pro" on target.com, select the first entry, add it to the cart, then select checkout. Image 49: 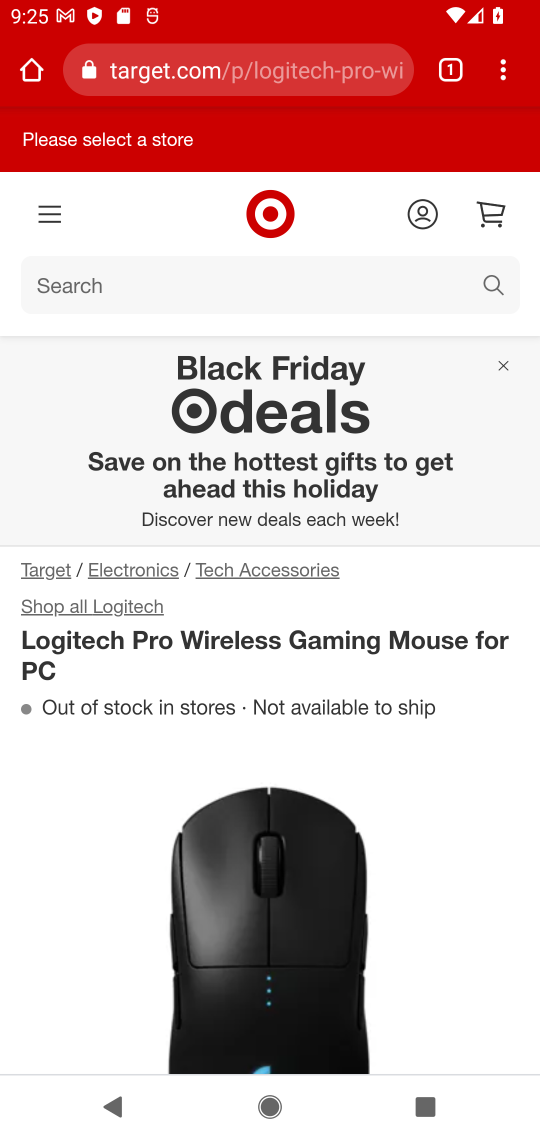
Step 49: drag from (440, 907) to (473, 386)
Your task to perform on an android device: Empty the shopping cart on target.com. Search for "logitech g pro" on target.com, select the first entry, add it to the cart, then select checkout. Image 50: 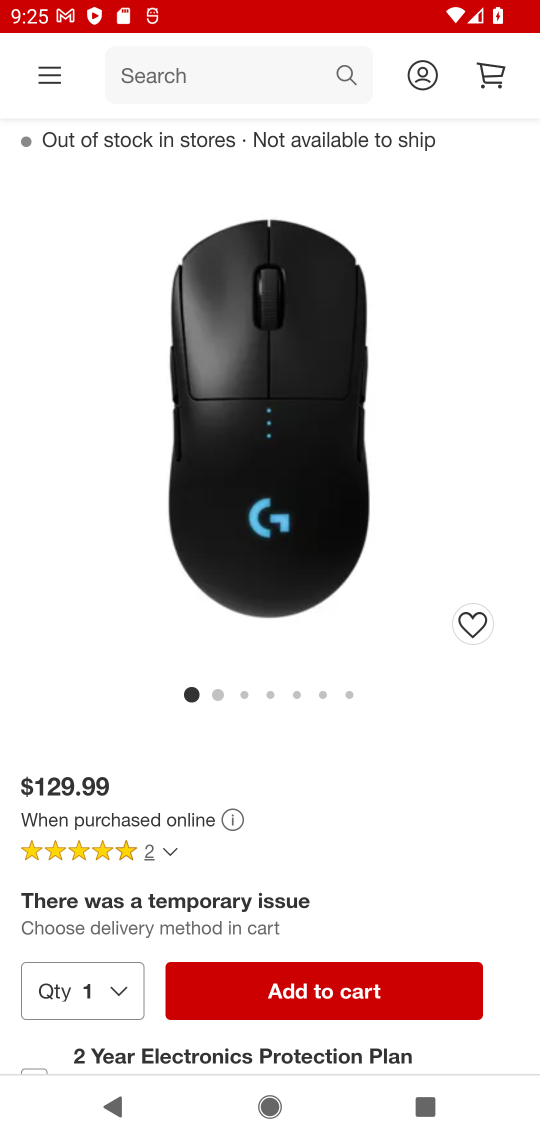
Step 50: drag from (400, 600) to (409, 347)
Your task to perform on an android device: Empty the shopping cart on target.com. Search for "logitech g pro" on target.com, select the first entry, add it to the cart, then select checkout. Image 51: 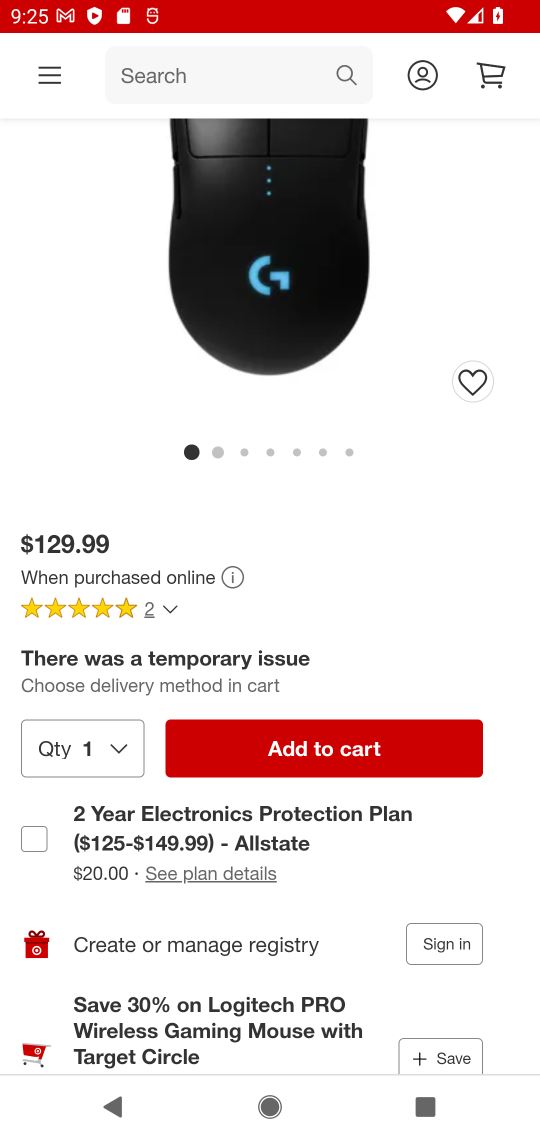
Step 51: drag from (438, 626) to (448, 537)
Your task to perform on an android device: Empty the shopping cart on target.com. Search for "logitech g pro" on target.com, select the first entry, add it to the cart, then select checkout. Image 52: 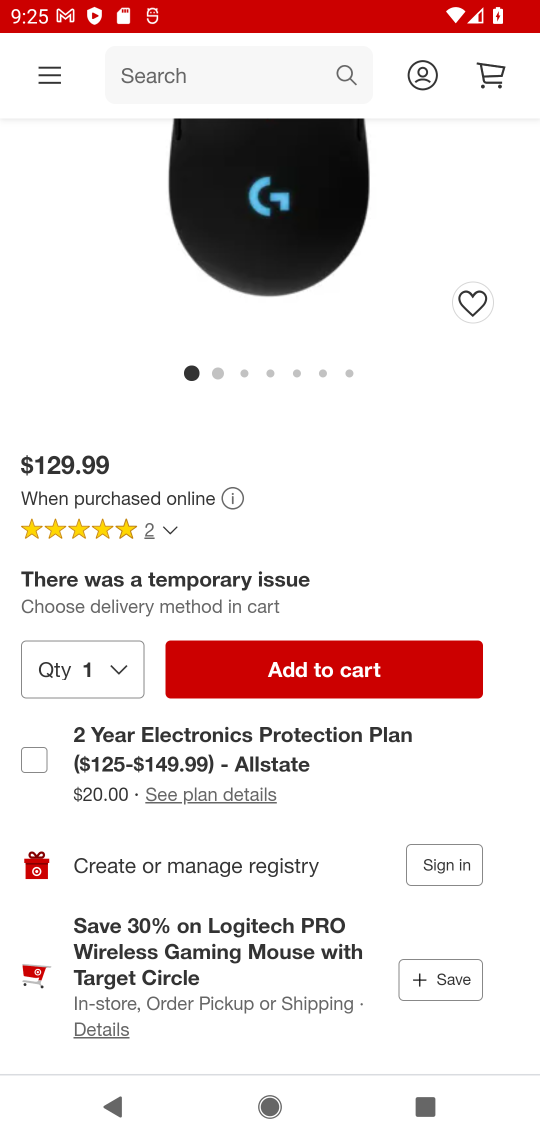
Step 52: click (375, 750)
Your task to perform on an android device: Empty the shopping cart on target.com. Search for "logitech g pro" on target.com, select the first entry, add it to the cart, then select checkout. Image 53: 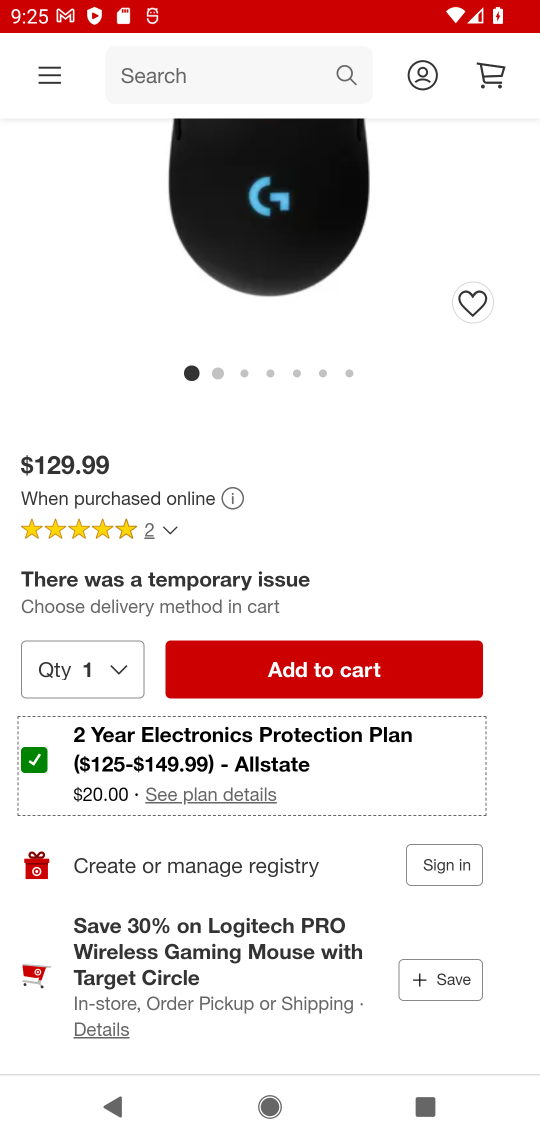
Step 53: click (373, 661)
Your task to perform on an android device: Empty the shopping cart on target.com. Search for "logitech g pro" on target.com, select the first entry, add it to the cart, then select checkout. Image 54: 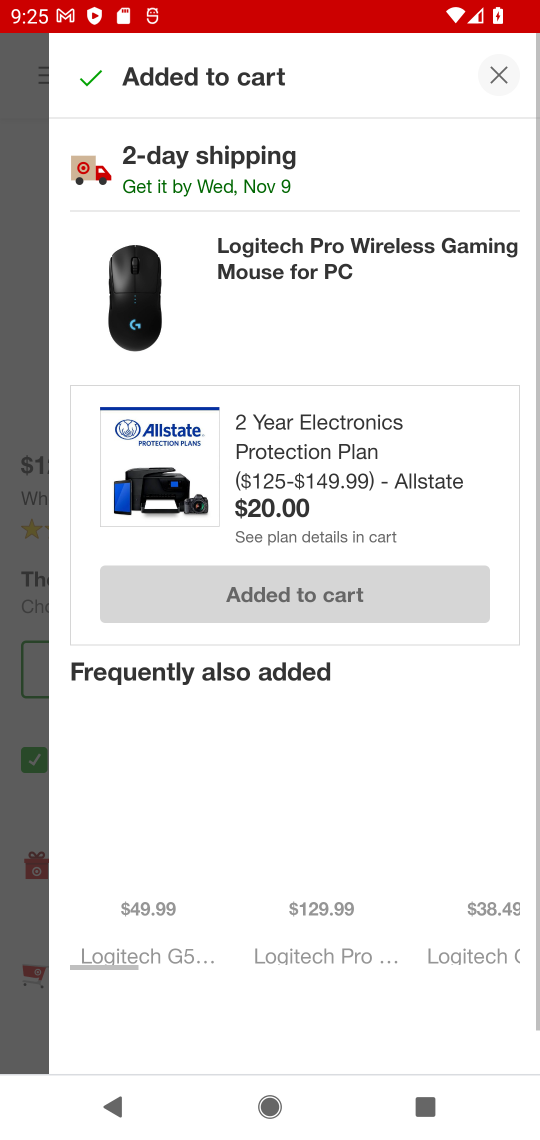
Step 54: click (44, 754)
Your task to perform on an android device: Empty the shopping cart on target.com. Search for "logitech g pro" on target.com, select the first entry, add it to the cart, then select checkout. Image 55: 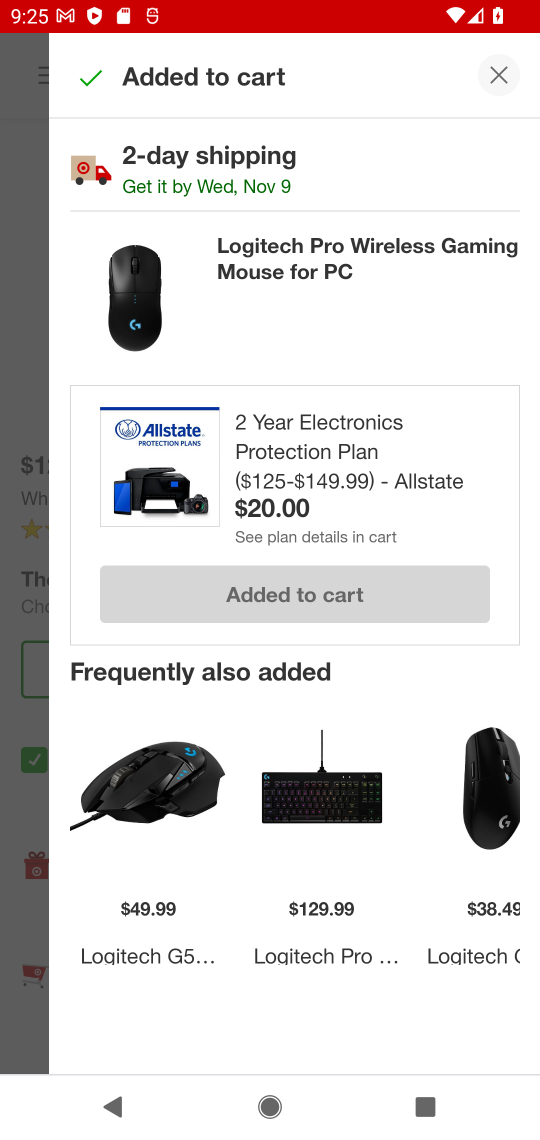
Step 55: click (495, 68)
Your task to perform on an android device: Empty the shopping cart on target.com. Search for "logitech g pro" on target.com, select the first entry, add it to the cart, then select checkout. Image 56: 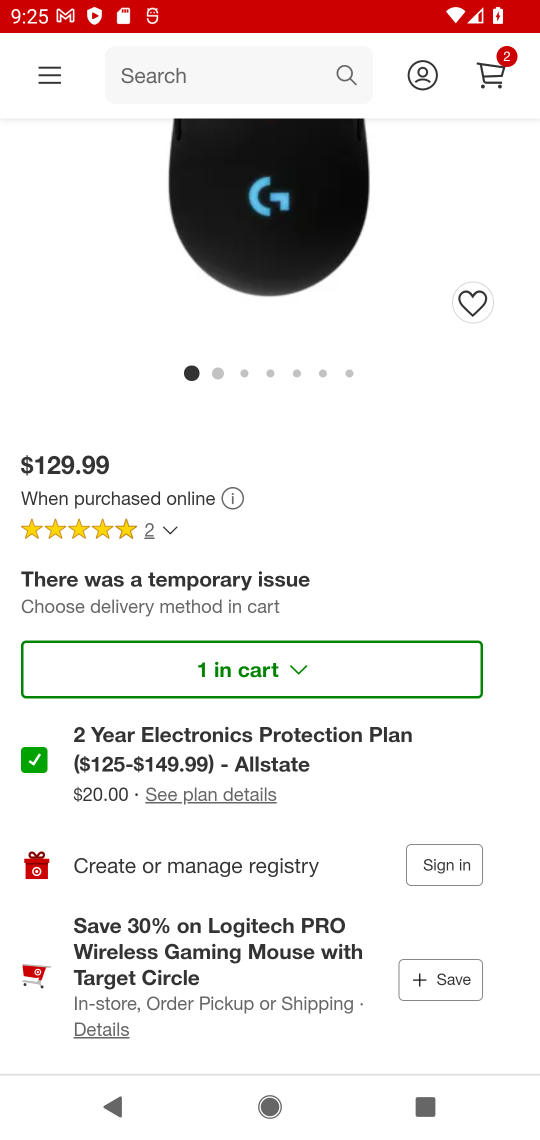
Step 56: click (499, 74)
Your task to perform on an android device: Empty the shopping cart on target.com. Search for "logitech g pro" on target.com, select the first entry, add it to the cart, then select checkout. Image 57: 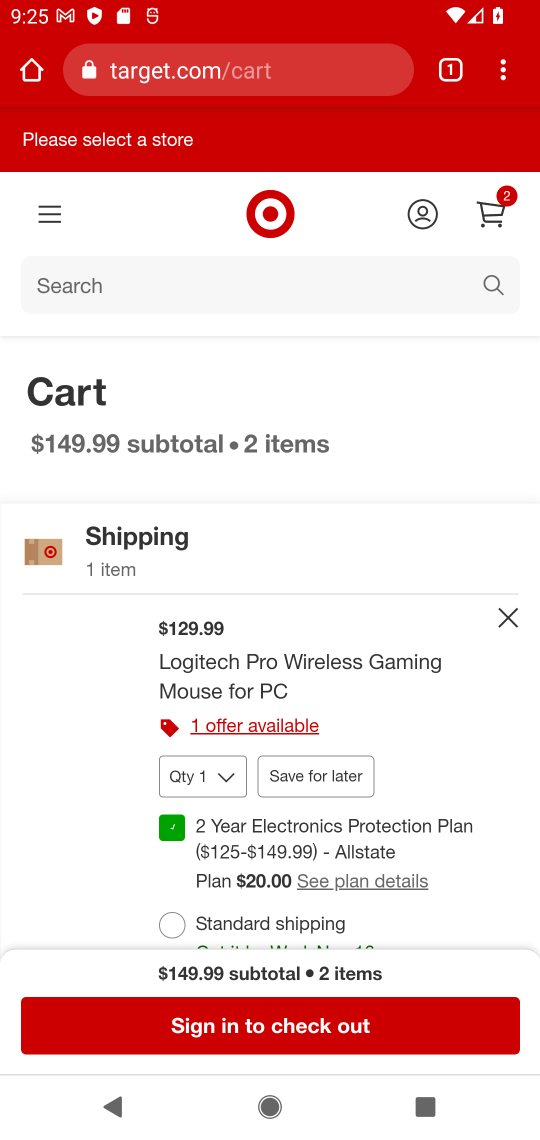
Step 57: click (343, 1026)
Your task to perform on an android device: Empty the shopping cart on target.com. Search for "logitech g pro" on target.com, select the first entry, add it to the cart, then select checkout. Image 58: 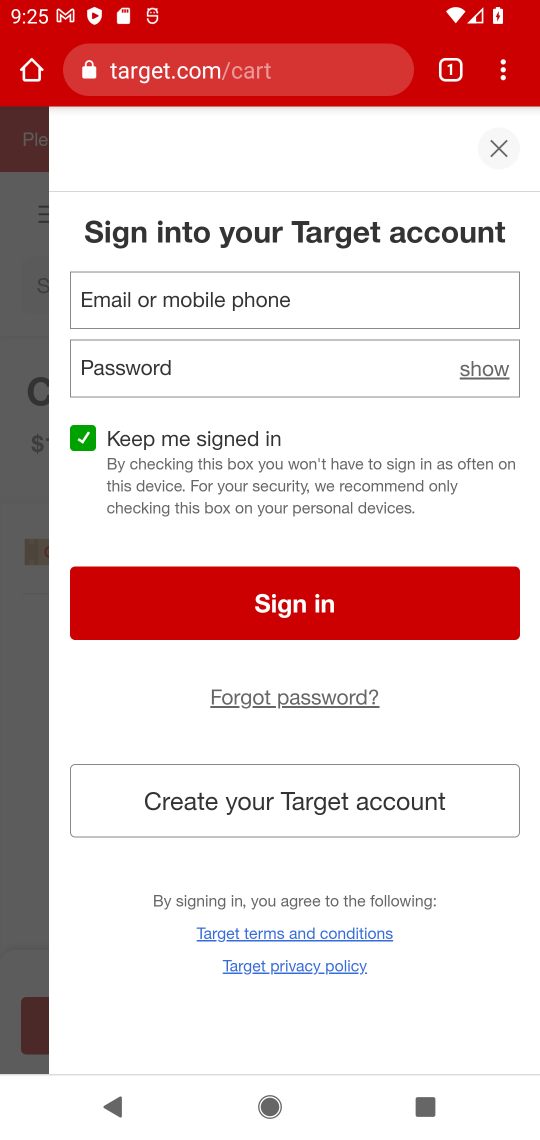
Step 58: task complete